Your task to perform on an android device: Clear the shopping cart on walmart. Search for macbook pro 13 inch on walmart, select the first entry, and add it to the cart. Image 0: 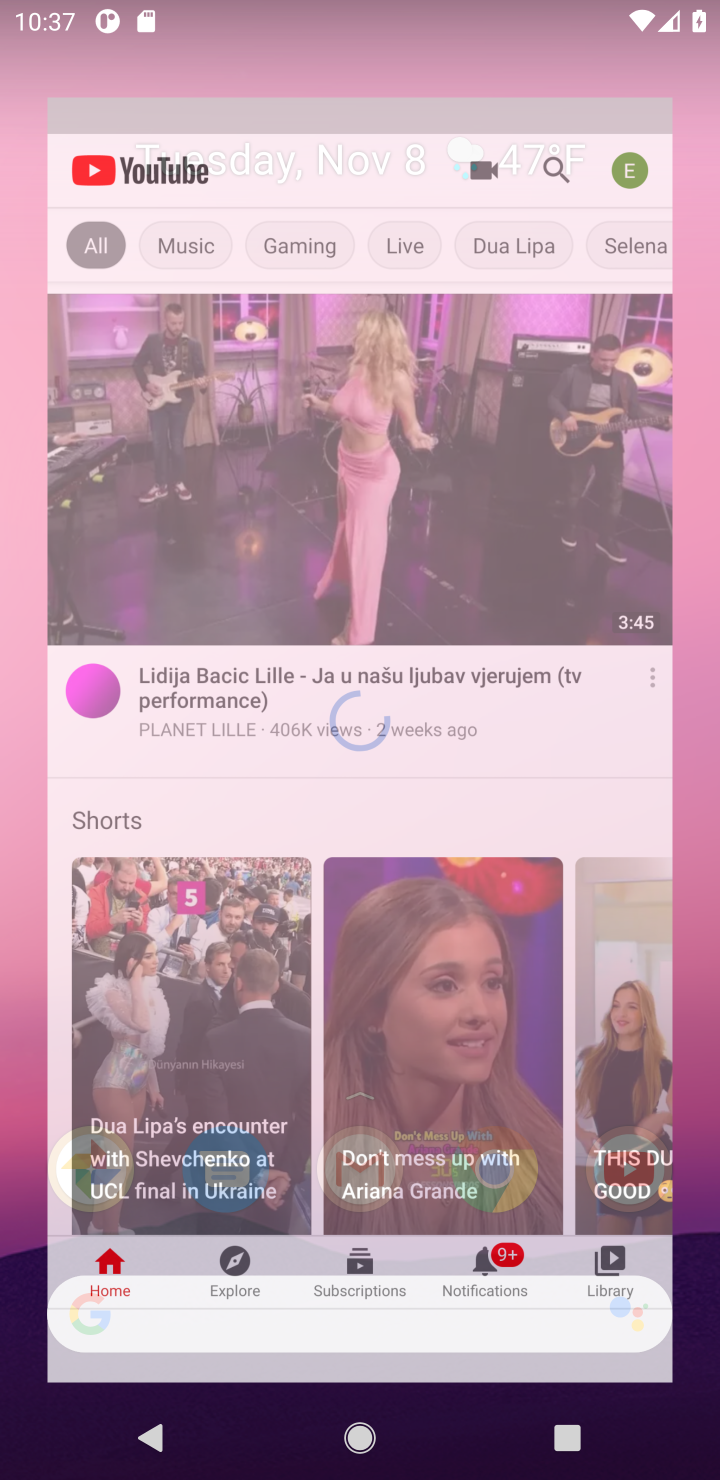
Step 0: click (500, 1135)
Your task to perform on an android device: Clear the shopping cart on walmart. Search for macbook pro 13 inch on walmart, select the first entry, and add it to the cart. Image 1: 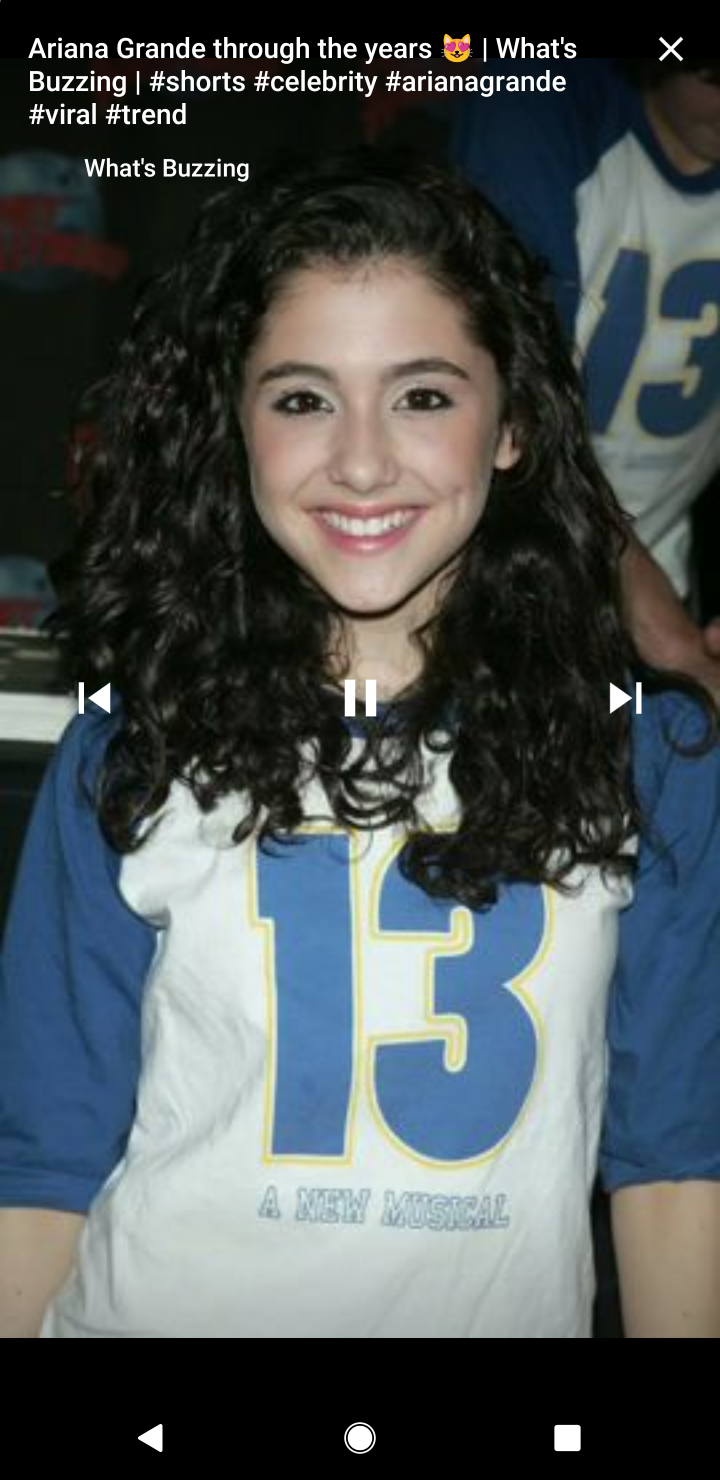
Step 1: press home button
Your task to perform on an android device: Clear the shopping cart on walmart. Search for macbook pro 13 inch on walmart, select the first entry, and add it to the cart. Image 2: 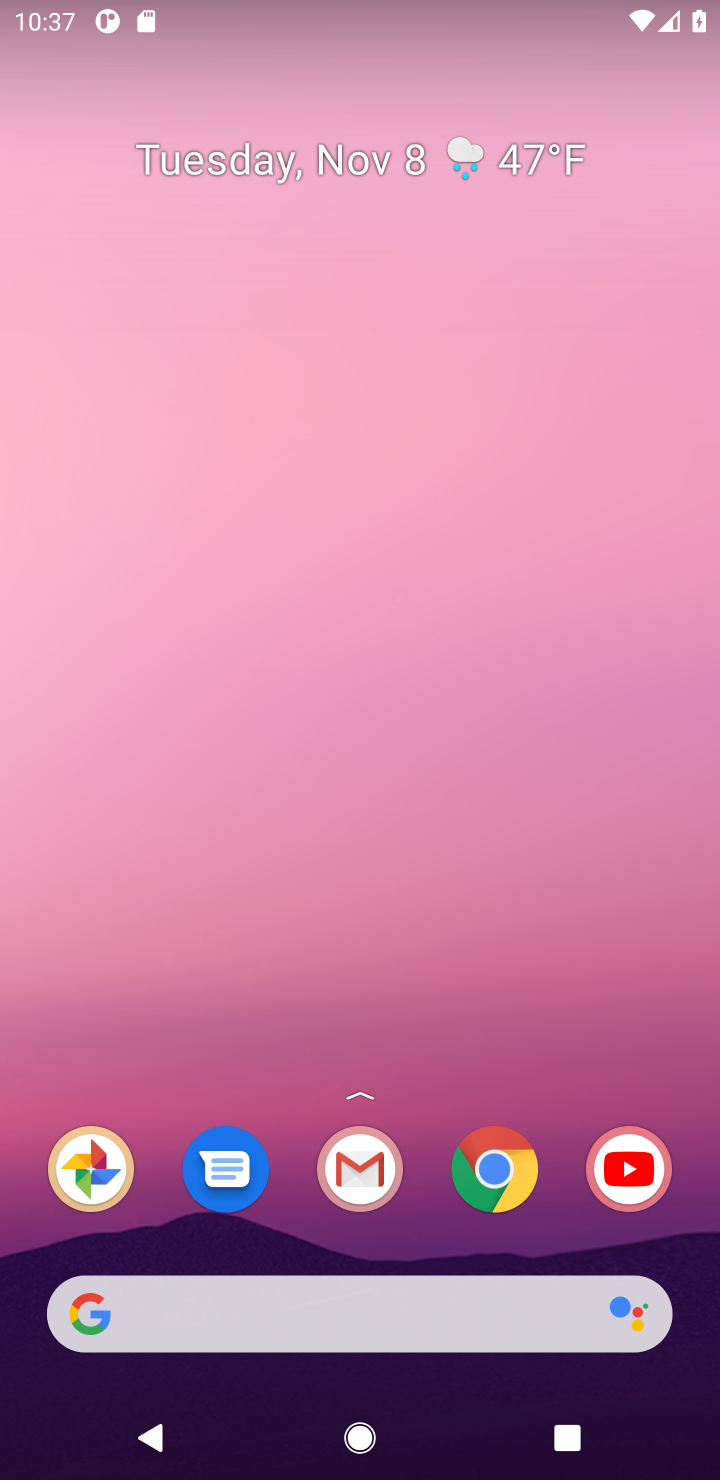
Step 2: click (515, 1180)
Your task to perform on an android device: Clear the shopping cart on walmart. Search for macbook pro 13 inch on walmart, select the first entry, and add it to the cart. Image 3: 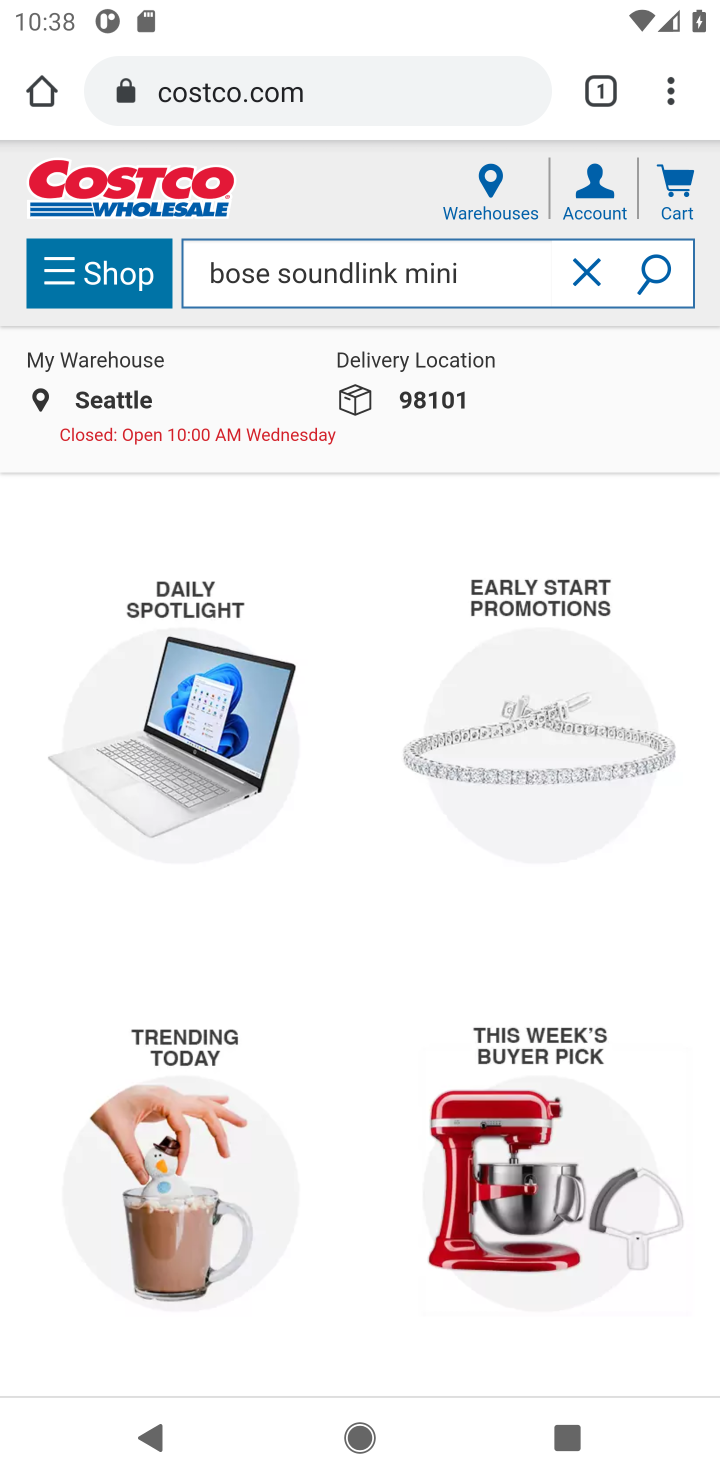
Step 3: click (456, 76)
Your task to perform on an android device: Clear the shopping cart on walmart. Search for macbook pro 13 inch on walmart, select the first entry, and add it to the cart. Image 4: 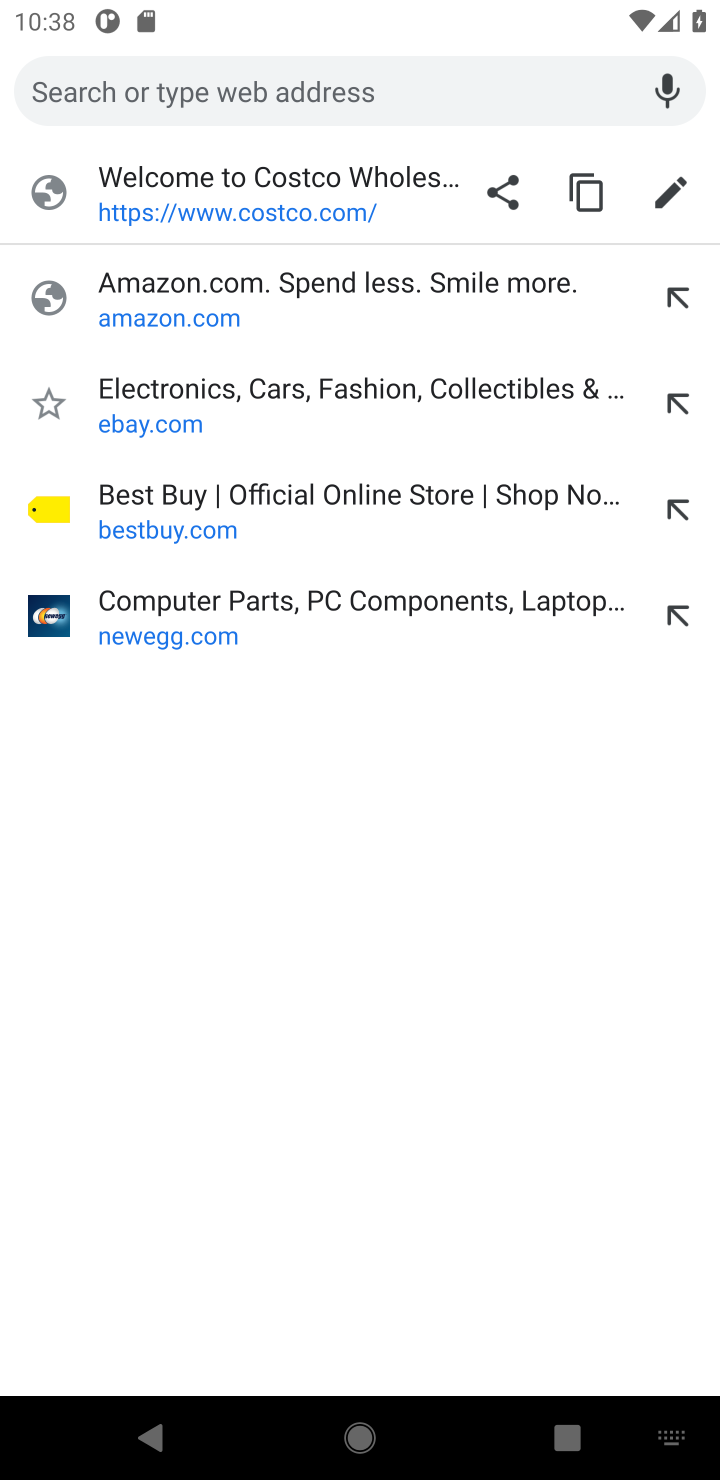
Step 4: press enter
Your task to perform on an android device: Clear the shopping cart on walmart. Search for macbook pro 13 inch on walmart, select the first entry, and add it to the cart. Image 5: 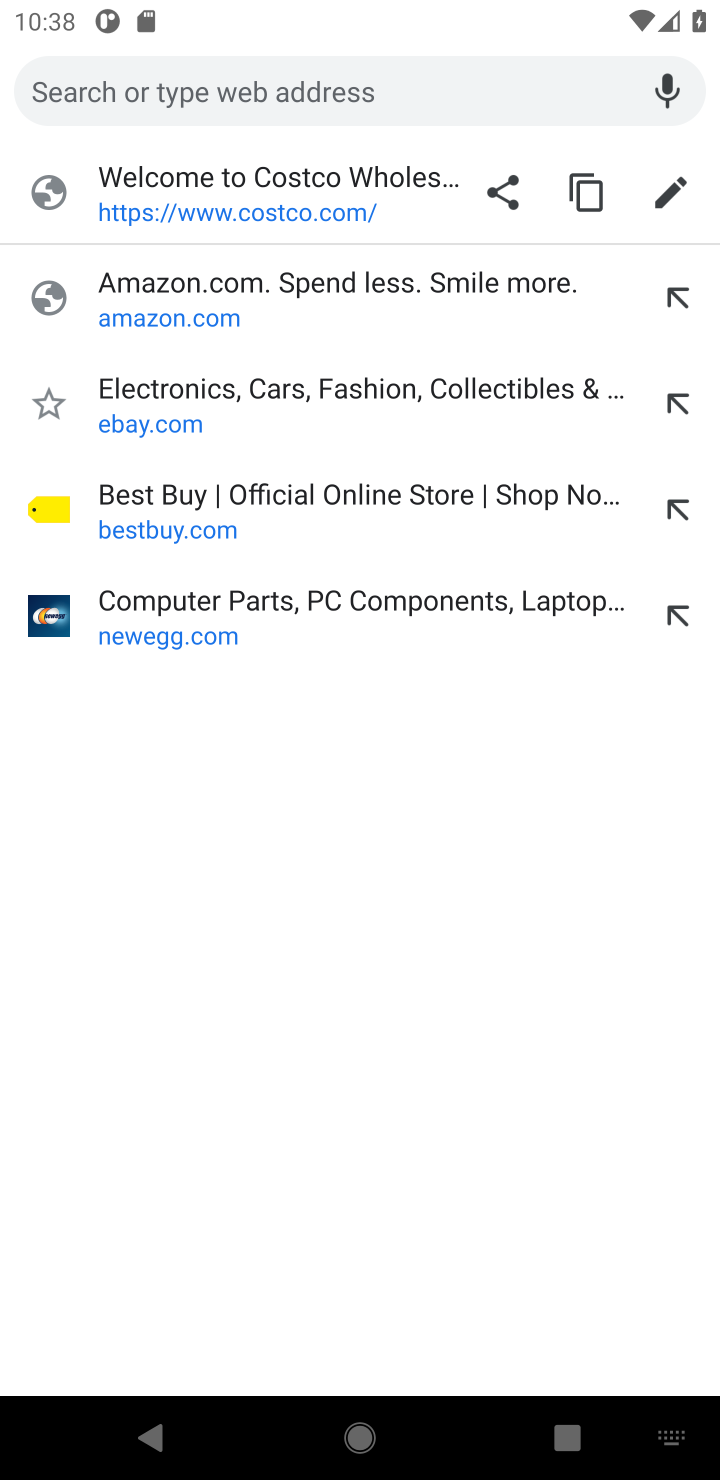
Step 5: type "walmart"
Your task to perform on an android device: Clear the shopping cart on walmart. Search for macbook pro 13 inch on walmart, select the first entry, and add it to the cart. Image 6: 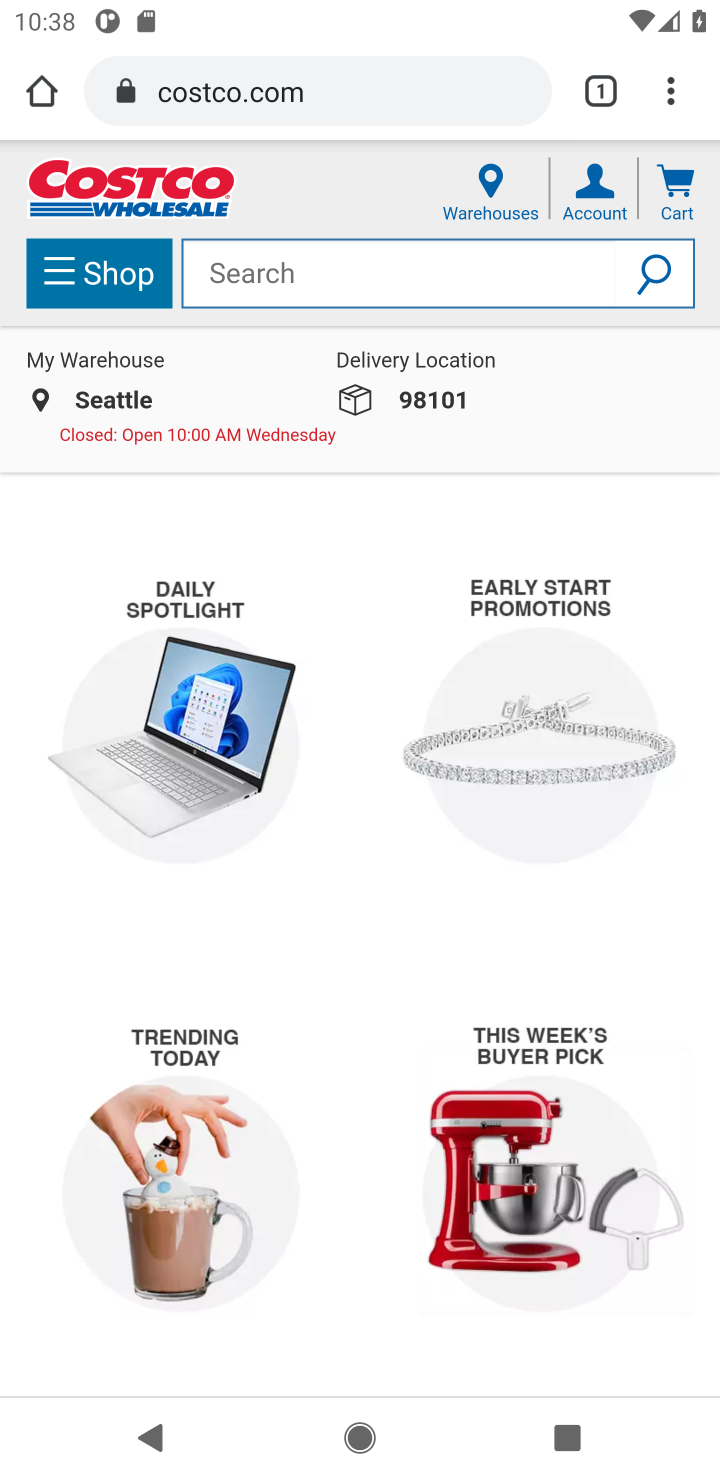
Step 6: click (303, 92)
Your task to perform on an android device: Clear the shopping cart on walmart. Search for macbook pro 13 inch on walmart, select the first entry, and add it to the cart. Image 7: 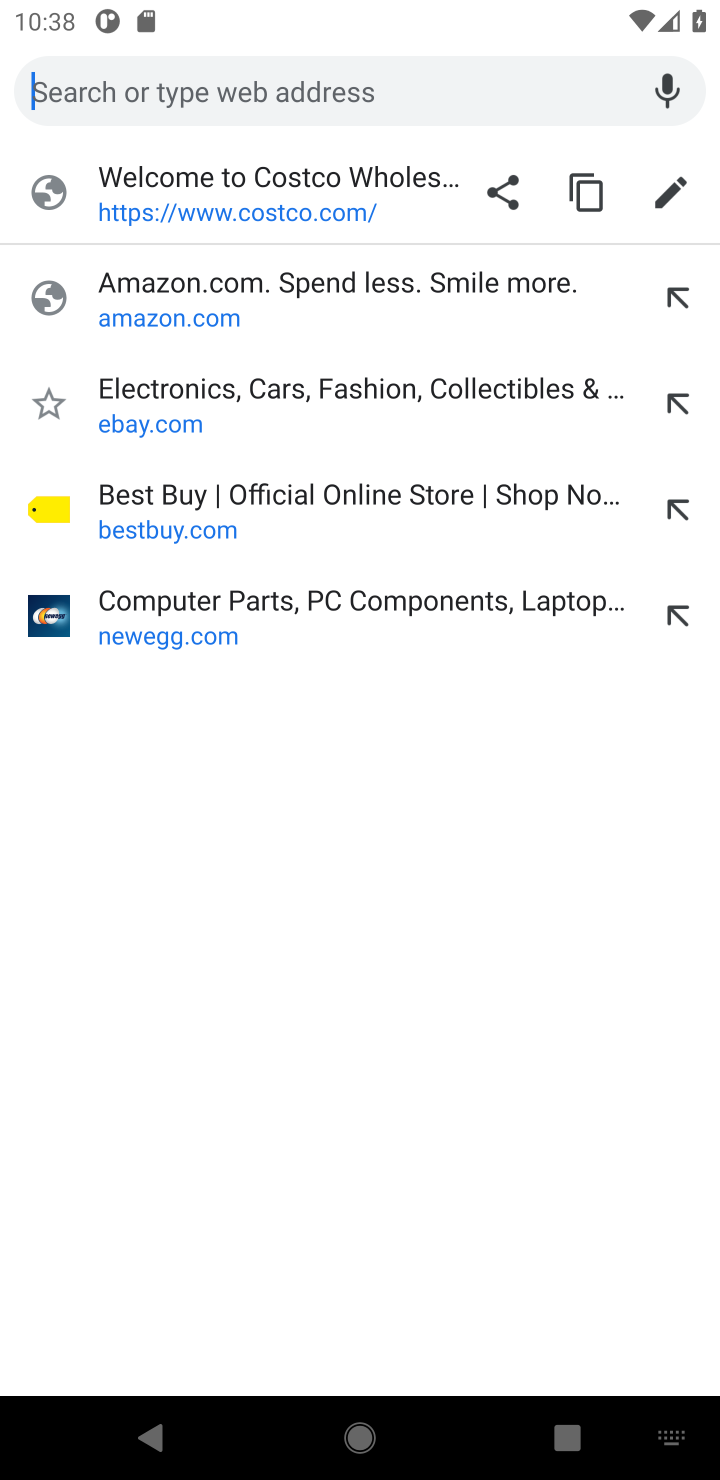
Step 7: press enter
Your task to perform on an android device: Clear the shopping cart on walmart. Search for macbook pro 13 inch on walmart, select the first entry, and add it to the cart. Image 8: 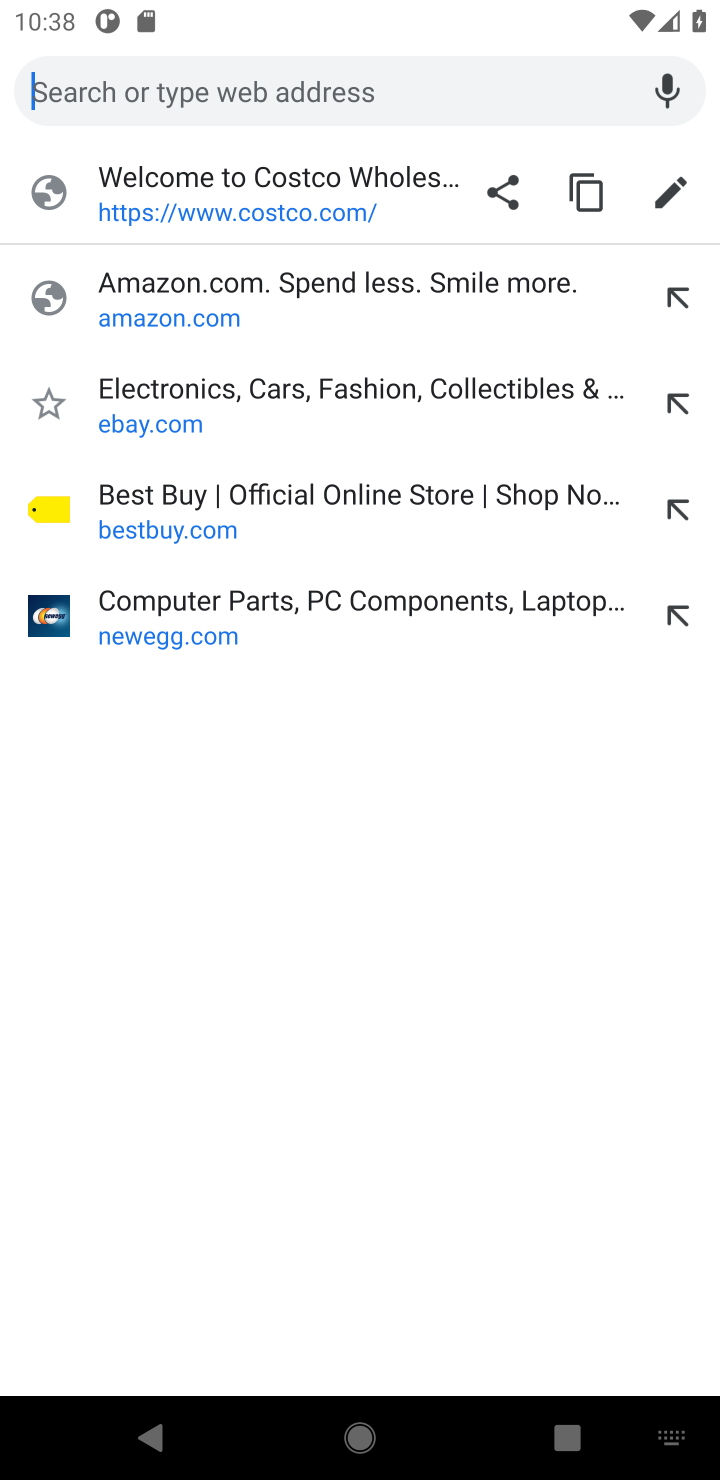
Step 8: type "walmart"
Your task to perform on an android device: Clear the shopping cart on walmart. Search for macbook pro 13 inch on walmart, select the first entry, and add it to the cart. Image 9: 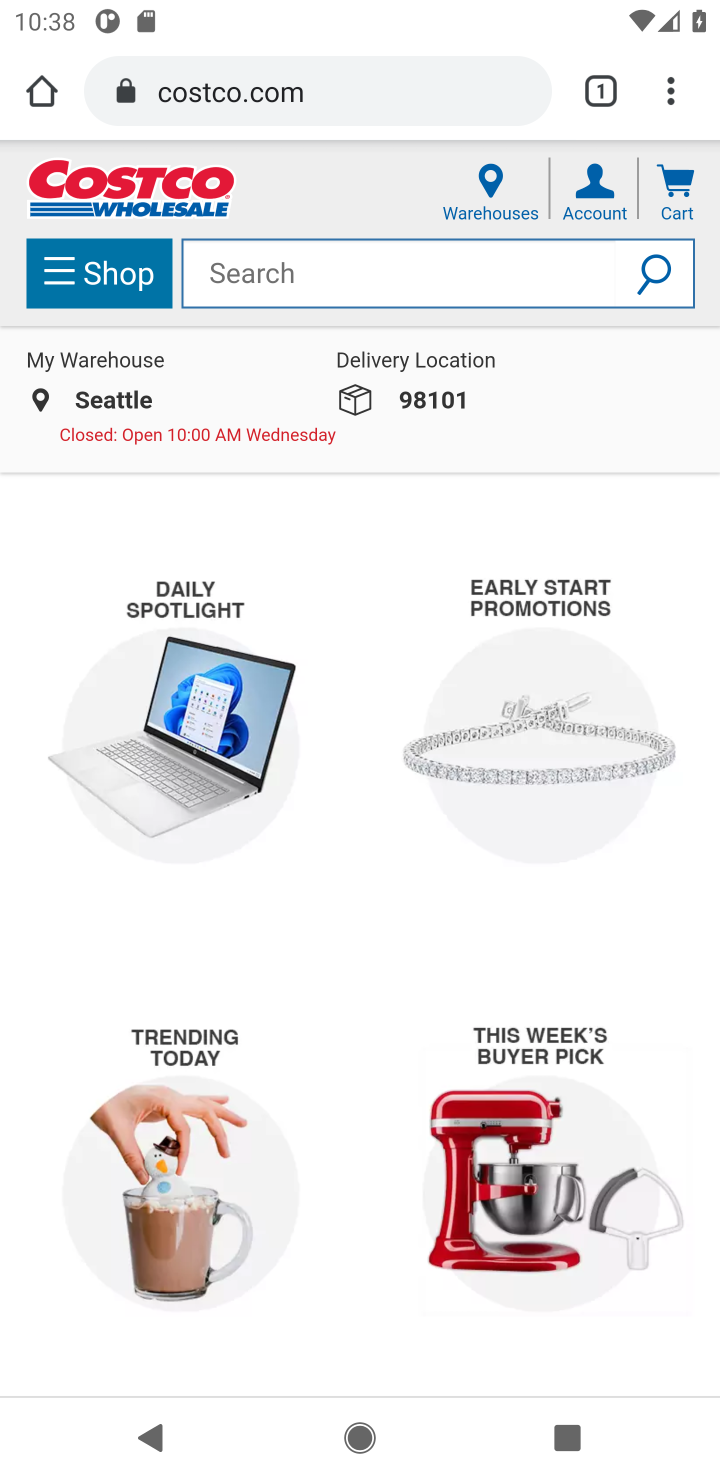
Step 9: click (39, 92)
Your task to perform on an android device: Clear the shopping cart on walmart. Search for macbook pro 13 inch on walmart, select the first entry, and add it to the cart. Image 10: 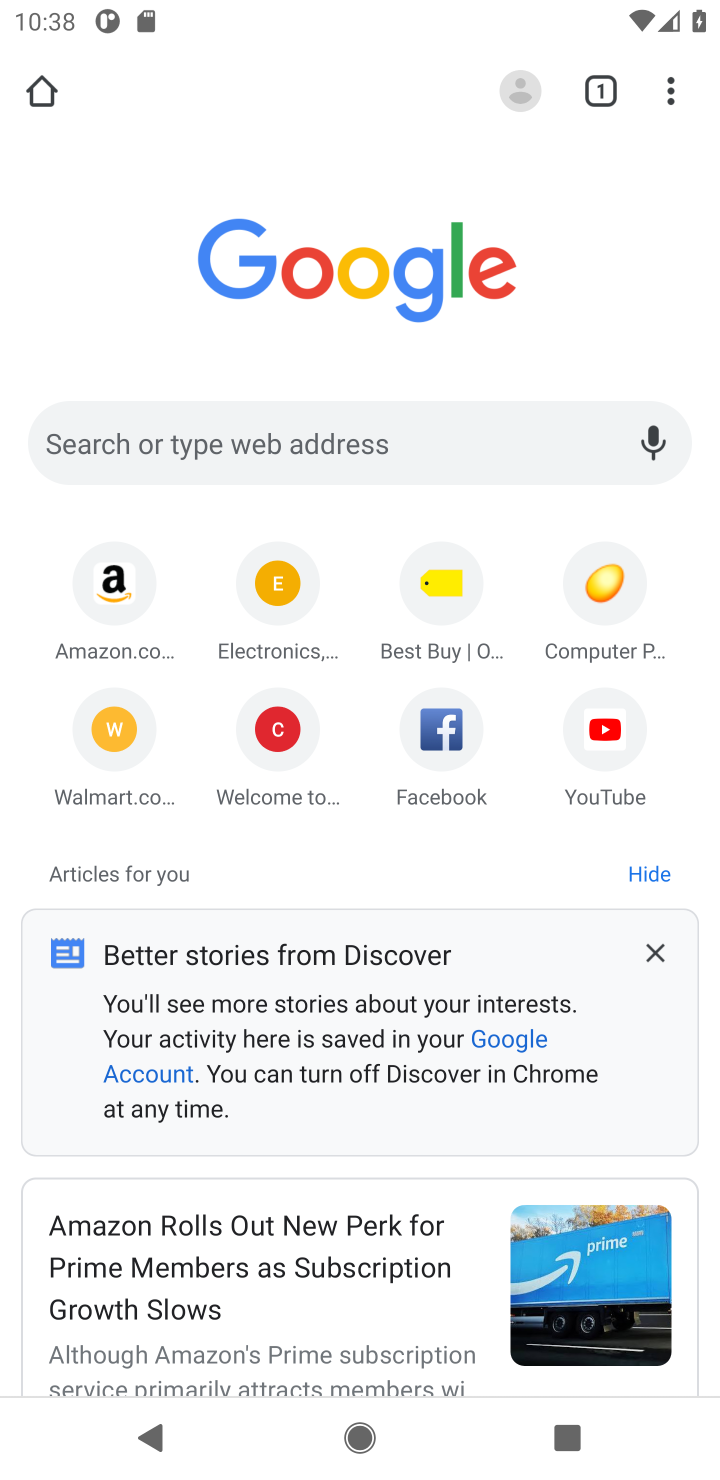
Step 10: click (334, 426)
Your task to perform on an android device: Clear the shopping cart on walmart. Search for macbook pro 13 inch on walmart, select the first entry, and add it to the cart. Image 11: 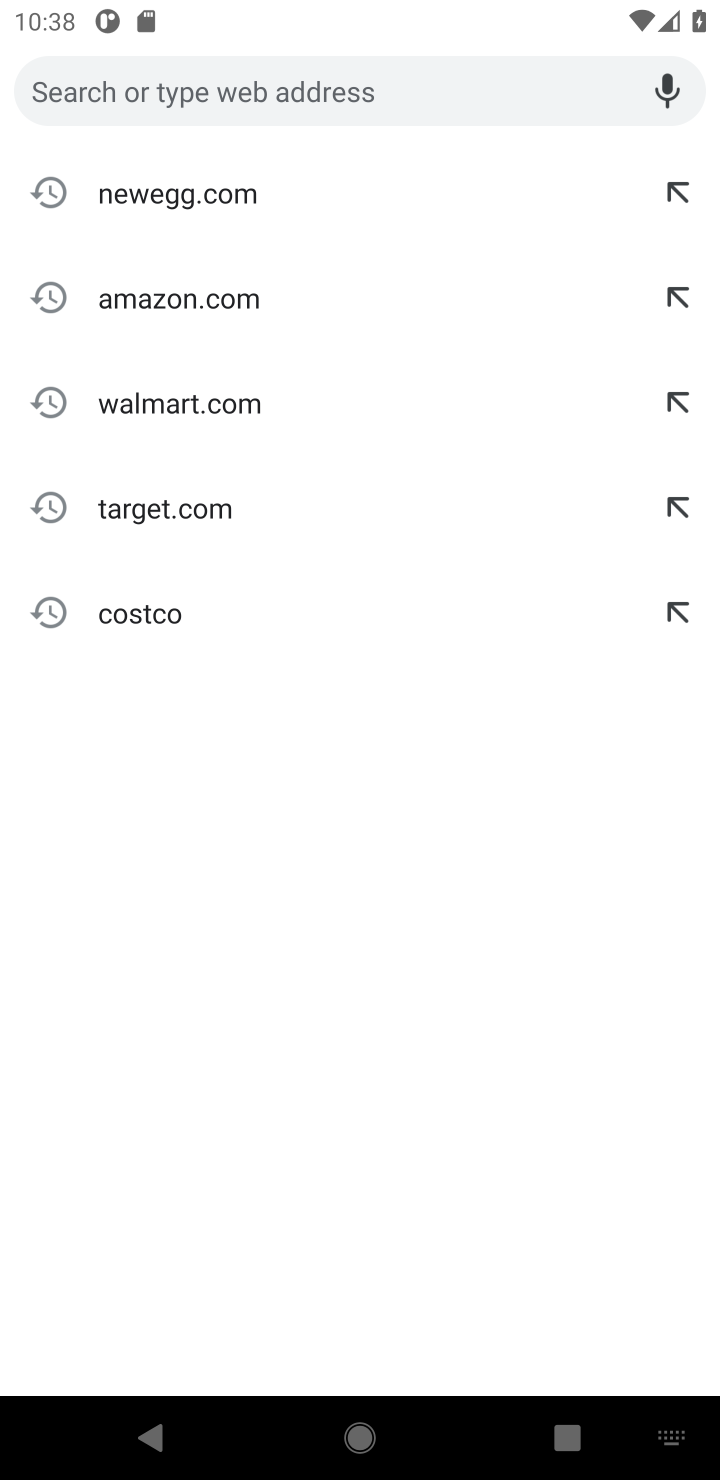
Step 11: click (237, 409)
Your task to perform on an android device: Clear the shopping cart on walmart. Search for macbook pro 13 inch on walmart, select the first entry, and add it to the cart. Image 12: 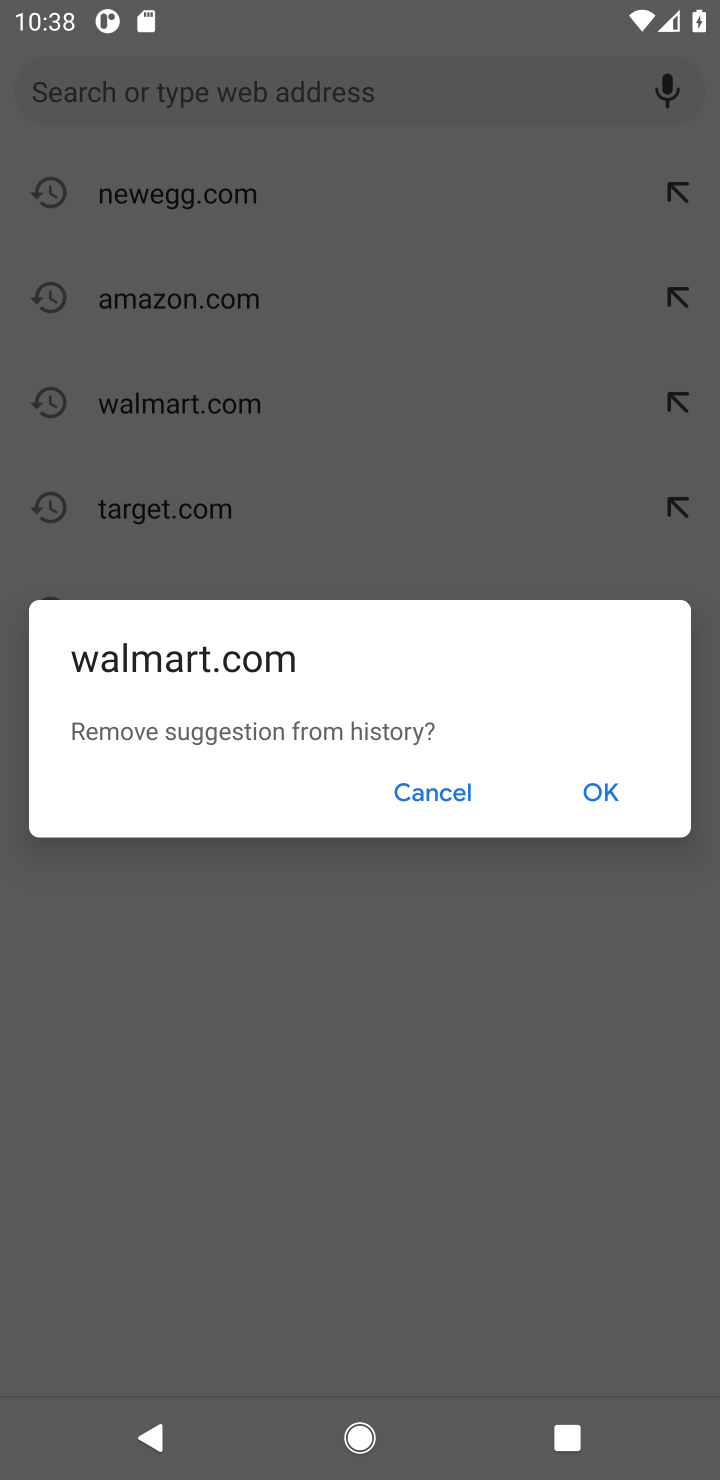
Step 12: click (578, 782)
Your task to perform on an android device: Clear the shopping cart on walmart. Search for macbook pro 13 inch on walmart, select the first entry, and add it to the cart. Image 13: 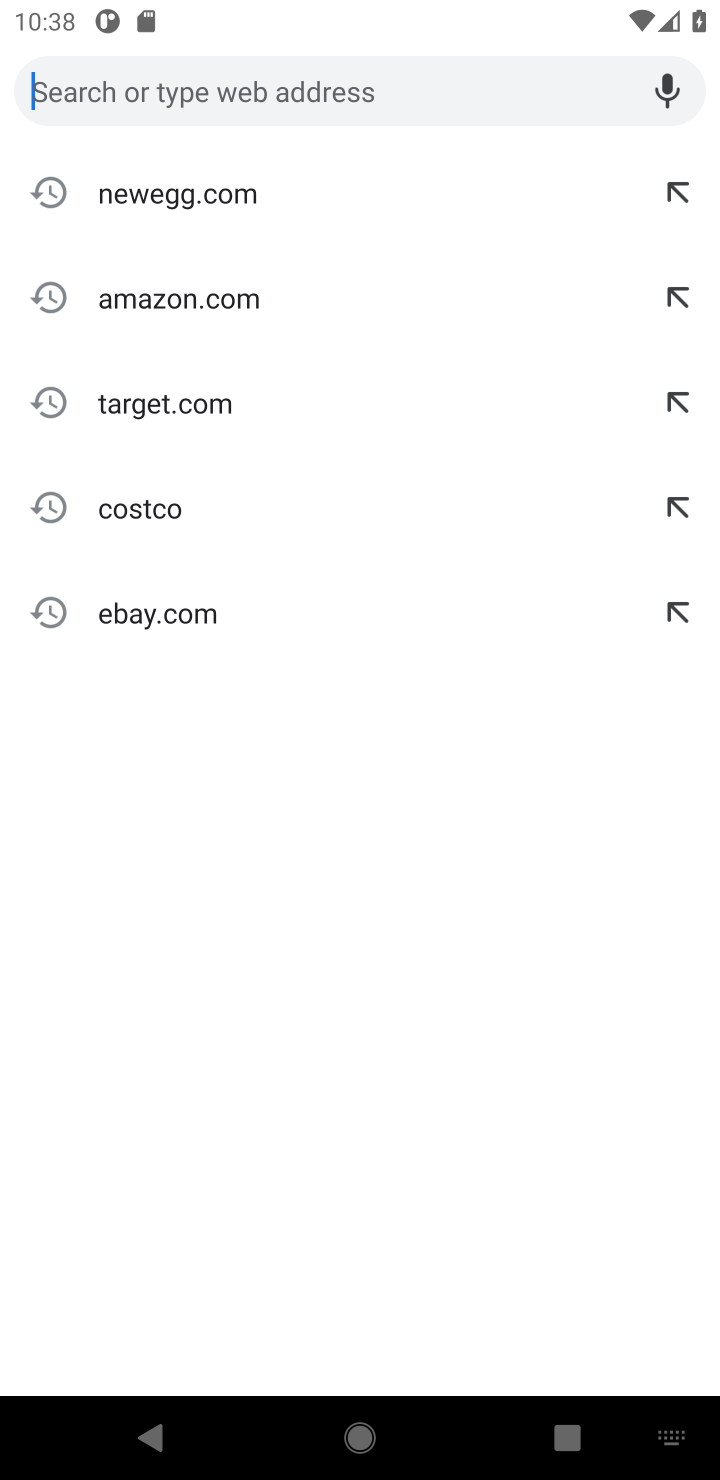
Step 13: press enter
Your task to perform on an android device: Clear the shopping cart on walmart. Search for macbook pro 13 inch on walmart, select the first entry, and add it to the cart. Image 14: 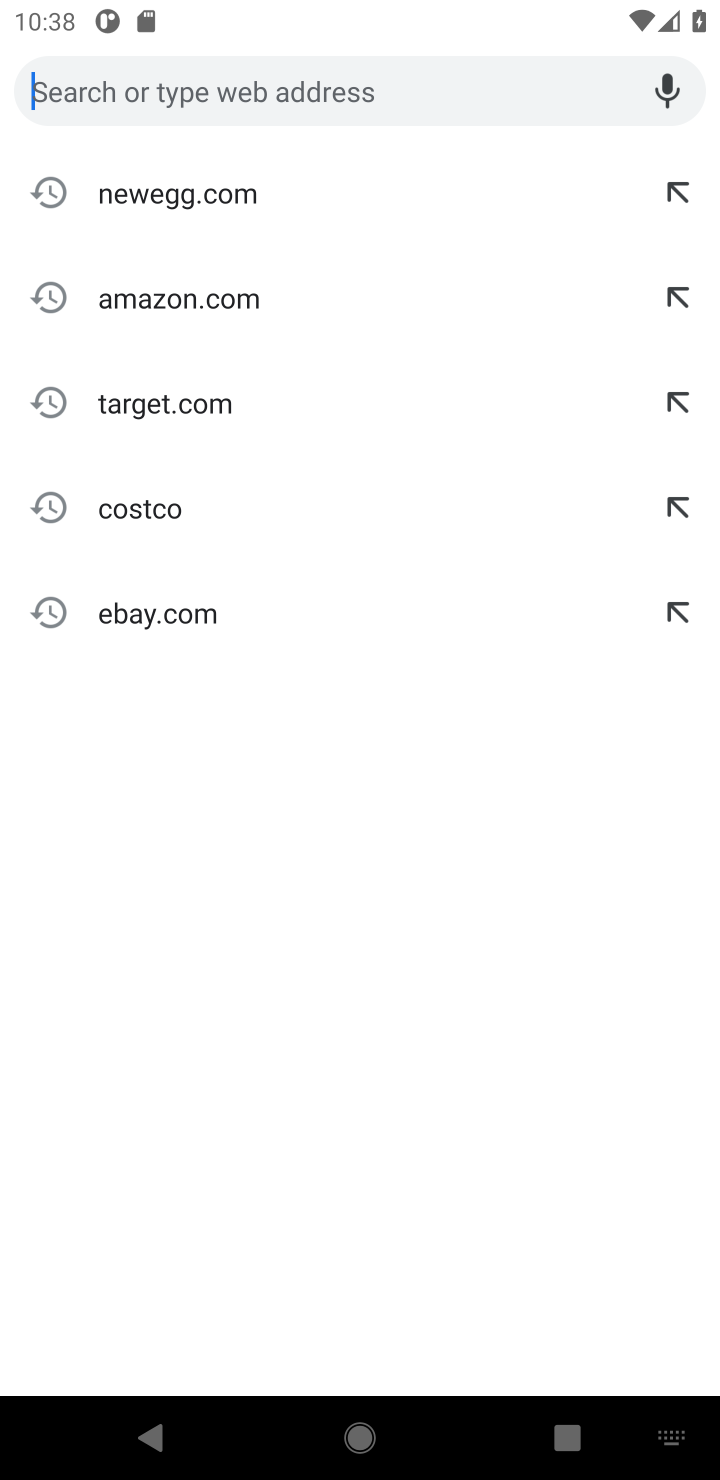
Step 14: type "walmart"
Your task to perform on an android device: Clear the shopping cart on walmart. Search for macbook pro 13 inch on walmart, select the first entry, and add it to the cart. Image 15: 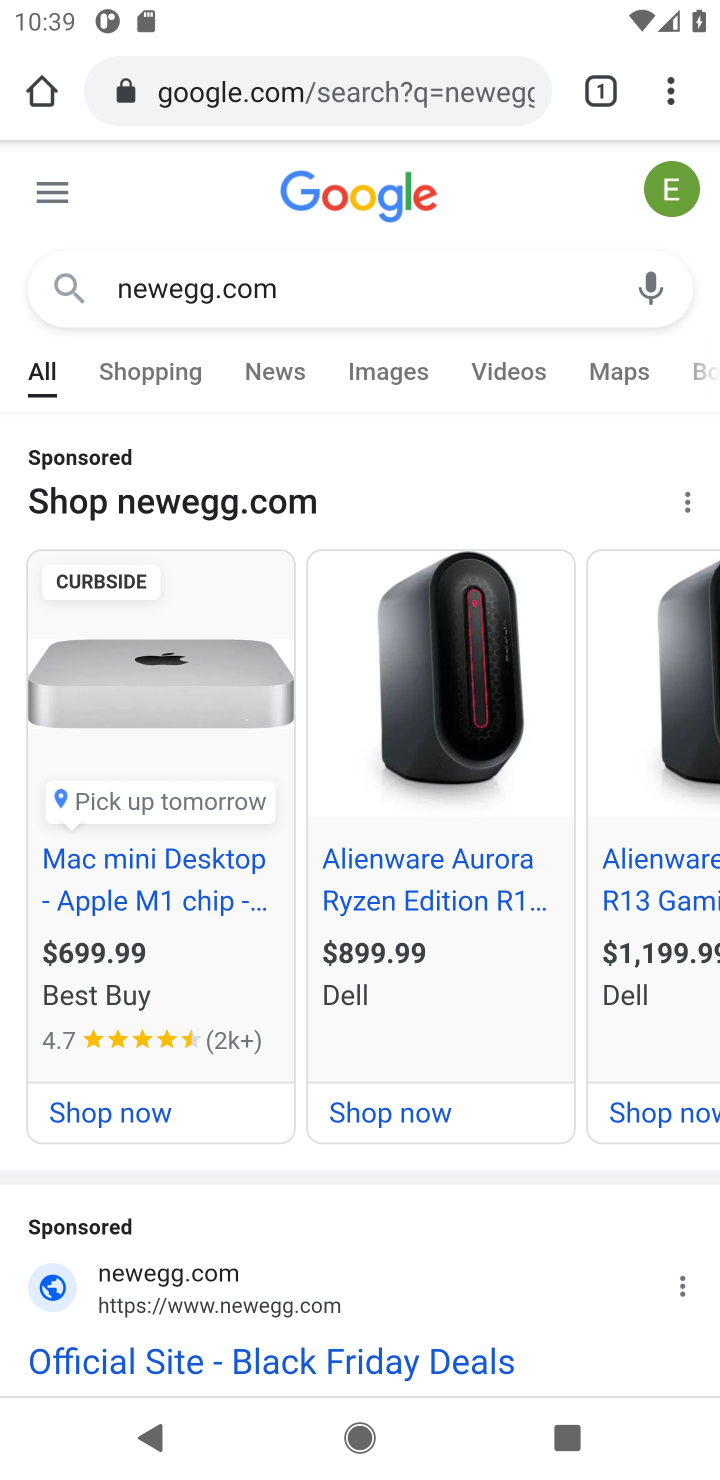
Step 15: click (382, 93)
Your task to perform on an android device: Clear the shopping cart on walmart. Search for macbook pro 13 inch on walmart, select the first entry, and add it to the cart. Image 16: 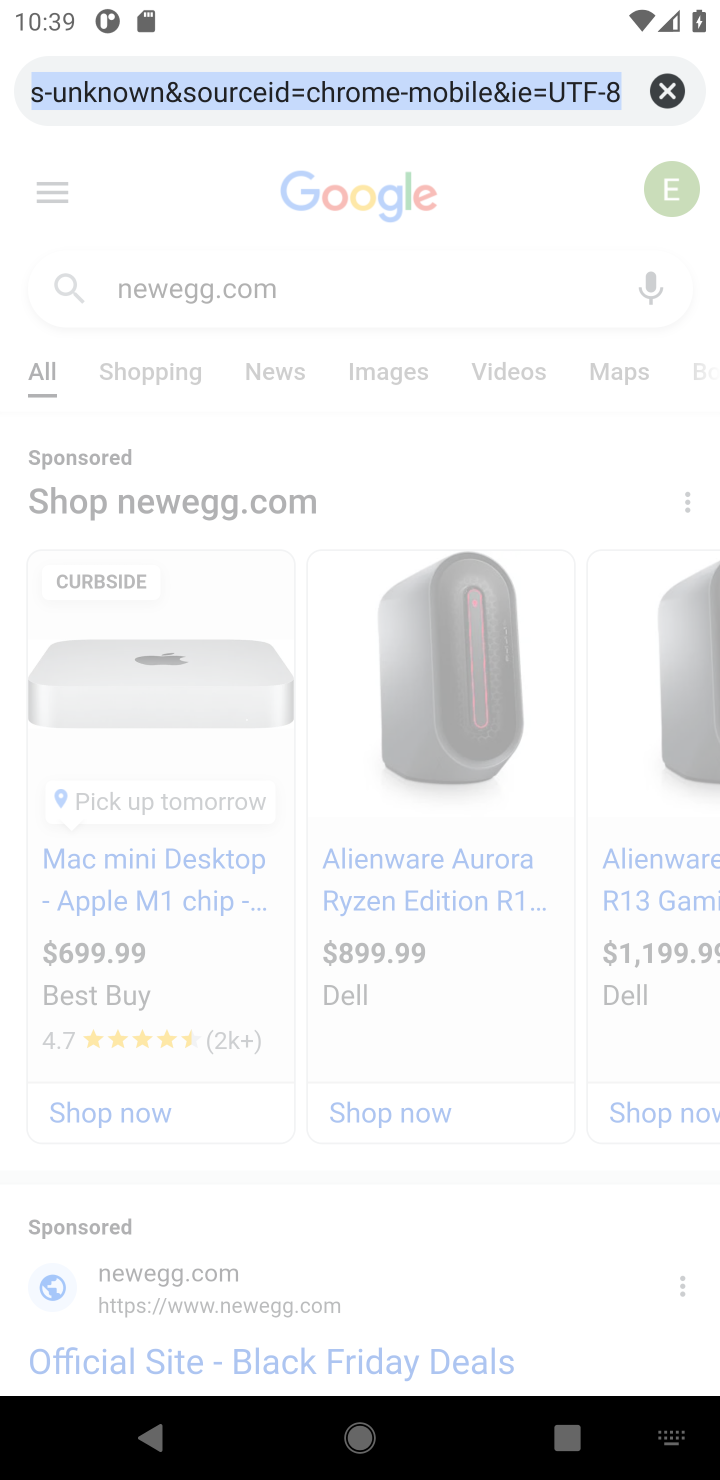
Step 16: click (671, 93)
Your task to perform on an android device: Clear the shopping cart on walmart. Search for macbook pro 13 inch on walmart, select the first entry, and add it to the cart. Image 17: 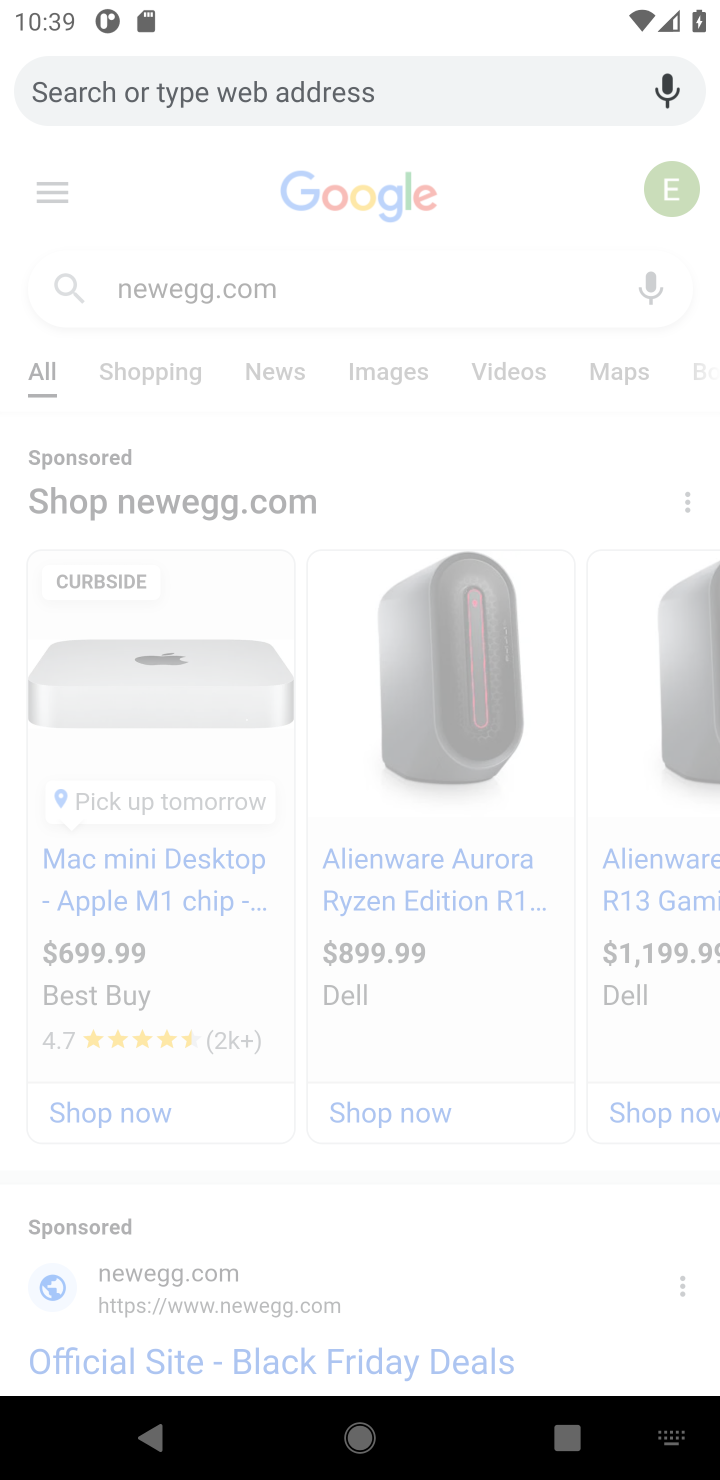
Step 17: press enter
Your task to perform on an android device: Clear the shopping cart on walmart. Search for macbook pro 13 inch on walmart, select the first entry, and add it to the cart. Image 18: 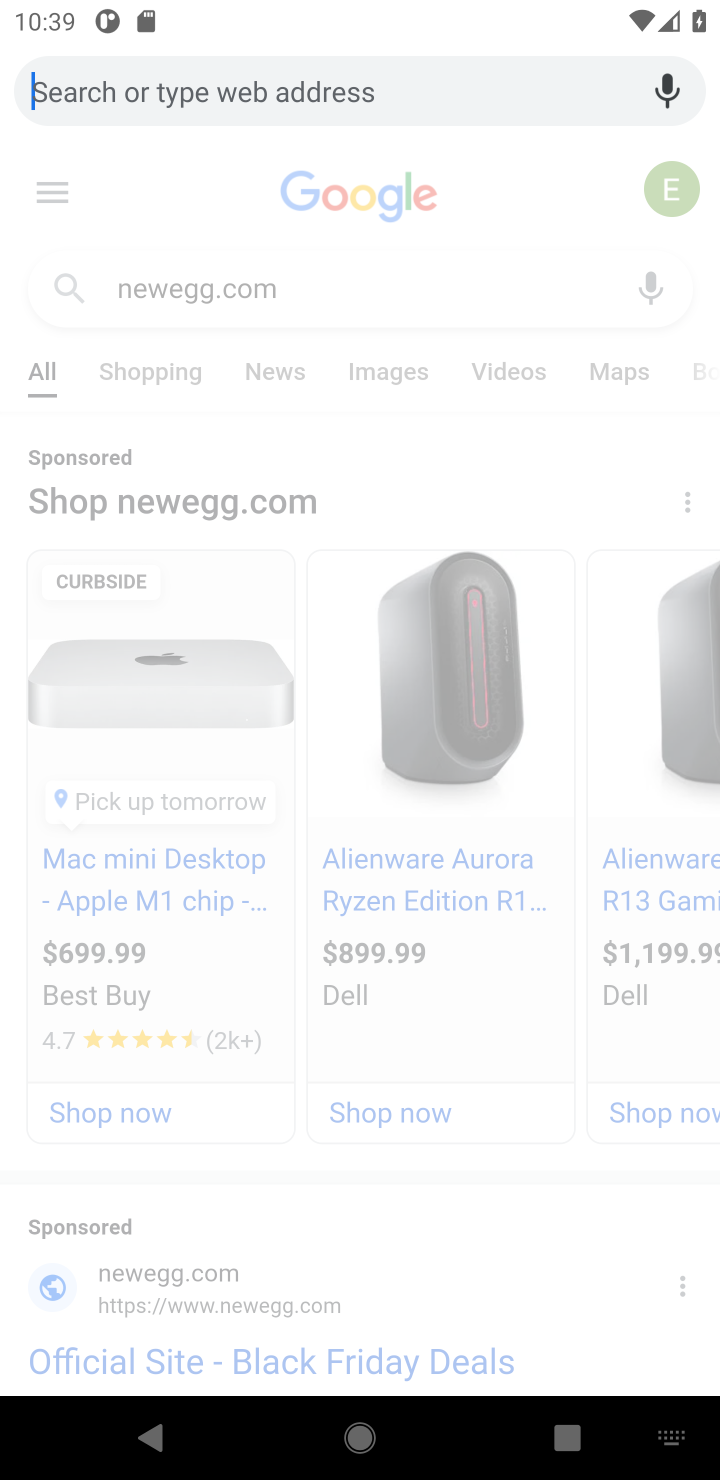
Step 18: type "walmart"
Your task to perform on an android device: Clear the shopping cart on walmart. Search for macbook pro 13 inch on walmart, select the first entry, and add it to the cart. Image 19: 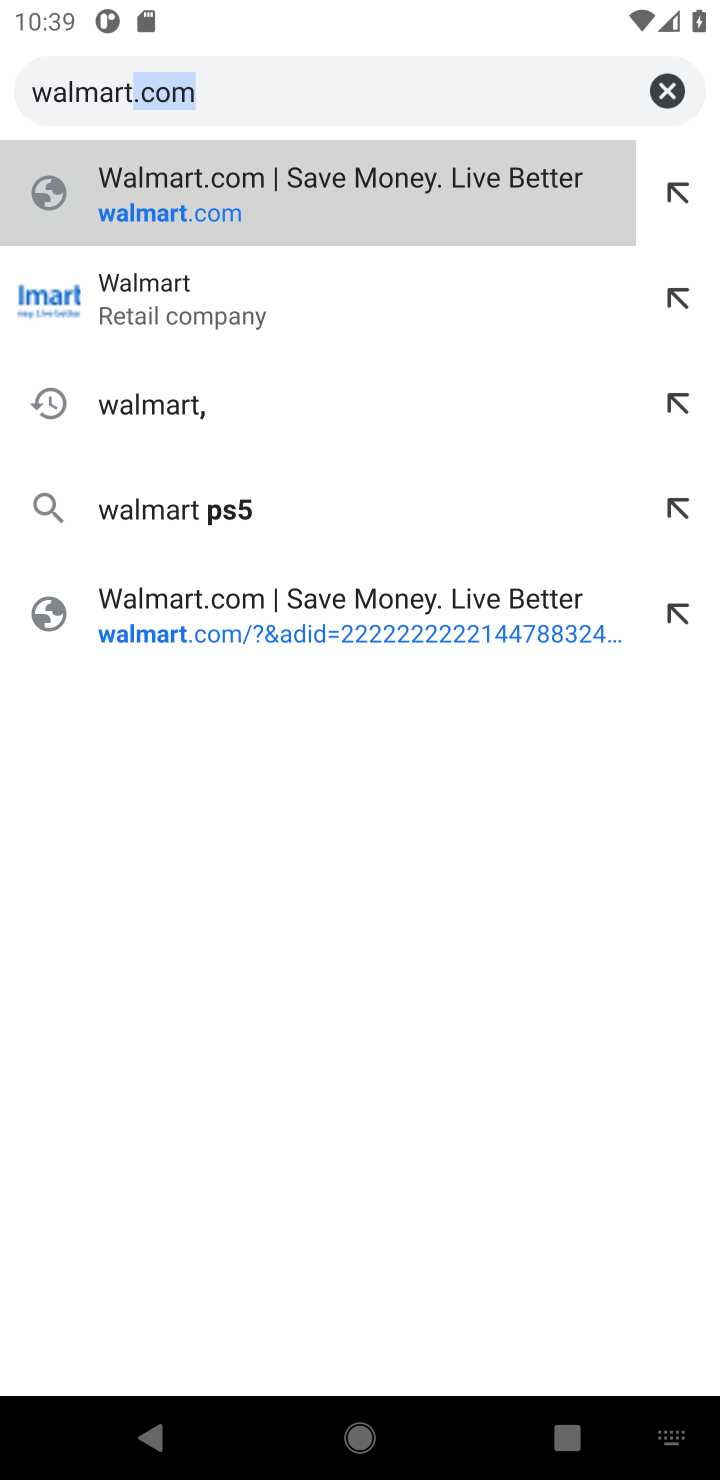
Step 19: click (381, 83)
Your task to perform on an android device: Clear the shopping cart on walmart. Search for macbook pro 13 inch on walmart, select the first entry, and add it to the cart. Image 20: 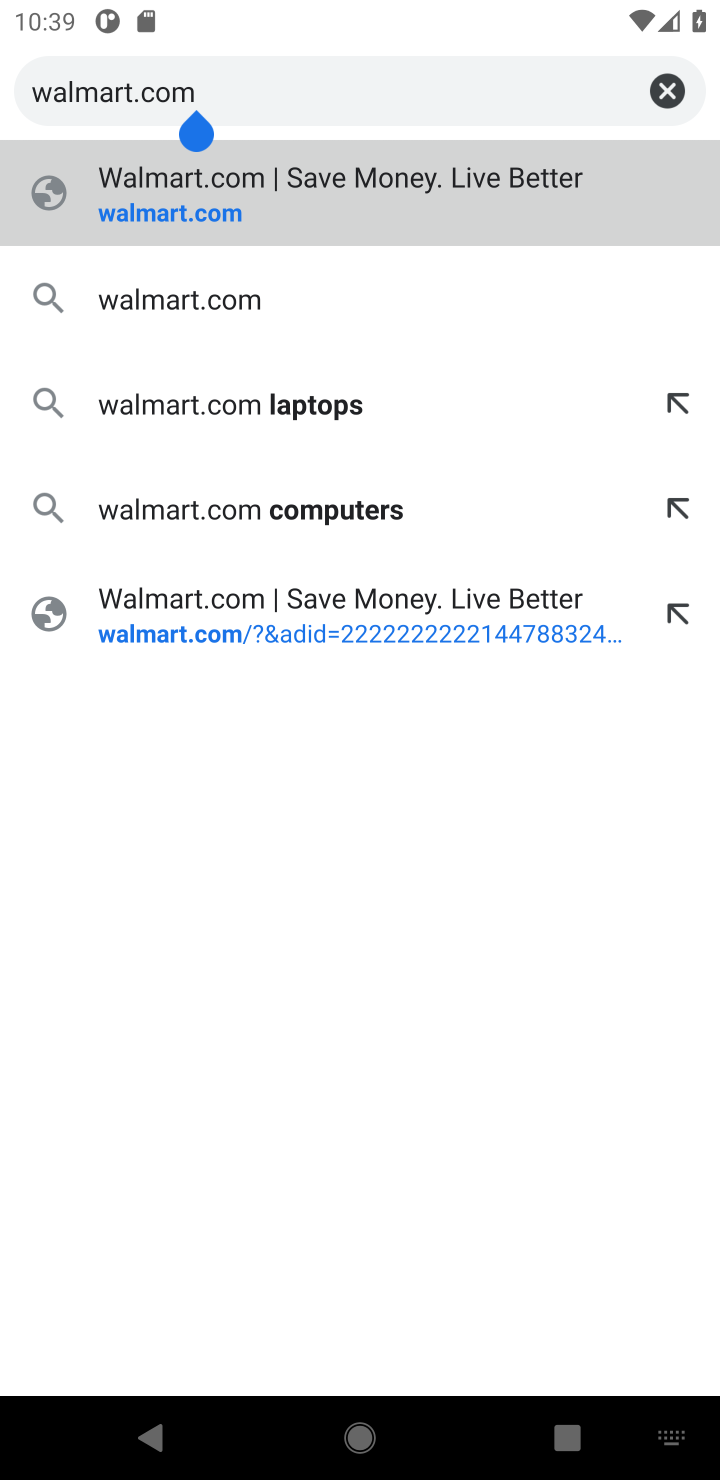
Step 20: click (224, 307)
Your task to perform on an android device: Clear the shopping cart on walmart. Search for macbook pro 13 inch on walmart, select the first entry, and add it to the cart. Image 21: 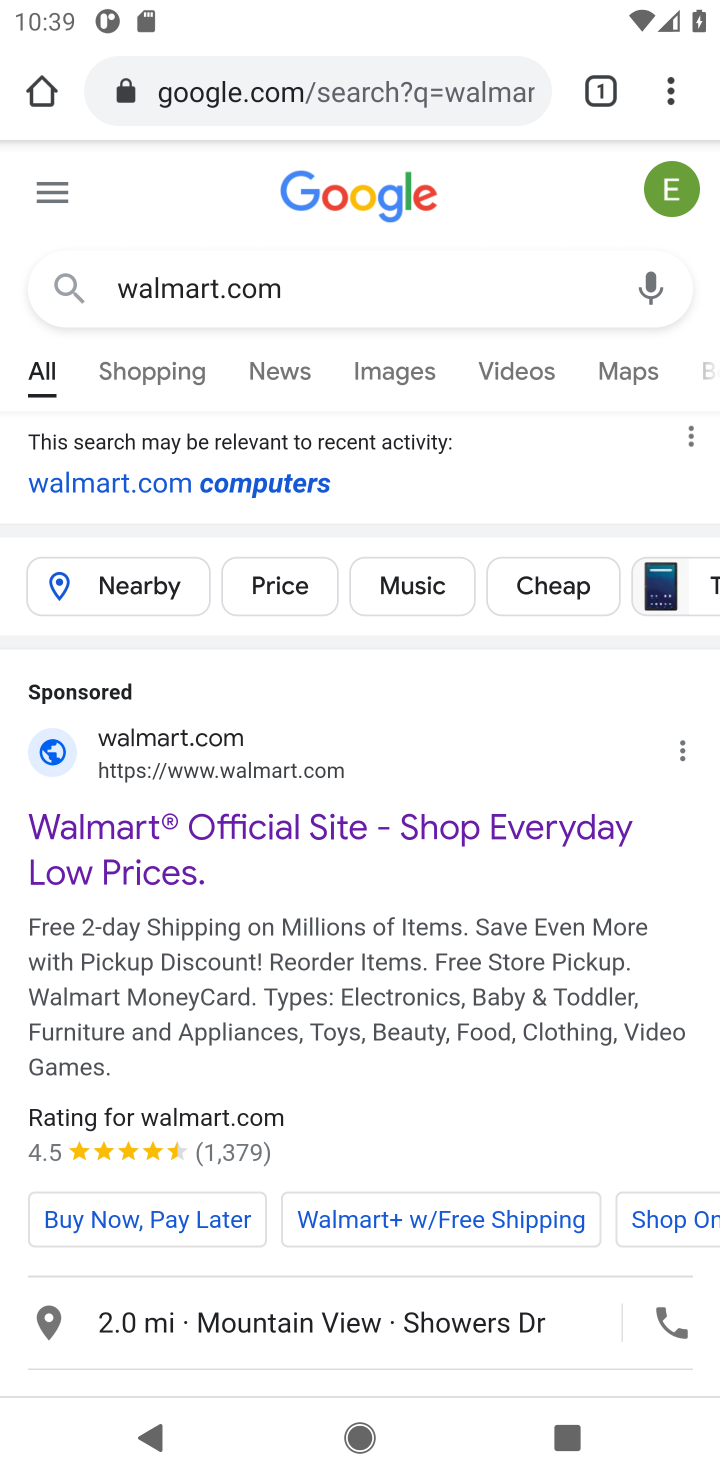
Step 21: click (196, 758)
Your task to perform on an android device: Clear the shopping cart on walmart. Search for macbook pro 13 inch on walmart, select the first entry, and add it to the cart. Image 22: 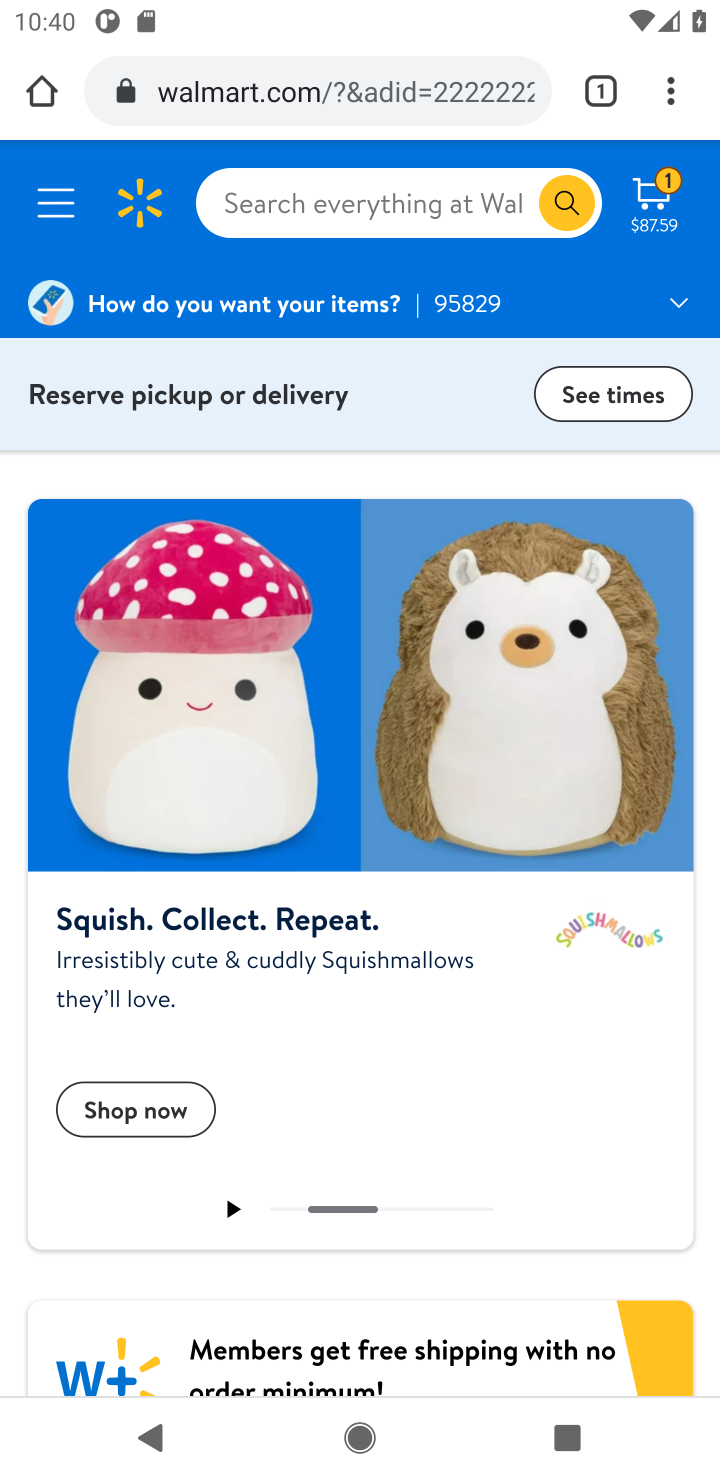
Step 22: click (642, 204)
Your task to perform on an android device: Clear the shopping cart on walmart. Search for macbook pro 13 inch on walmart, select the first entry, and add it to the cart. Image 23: 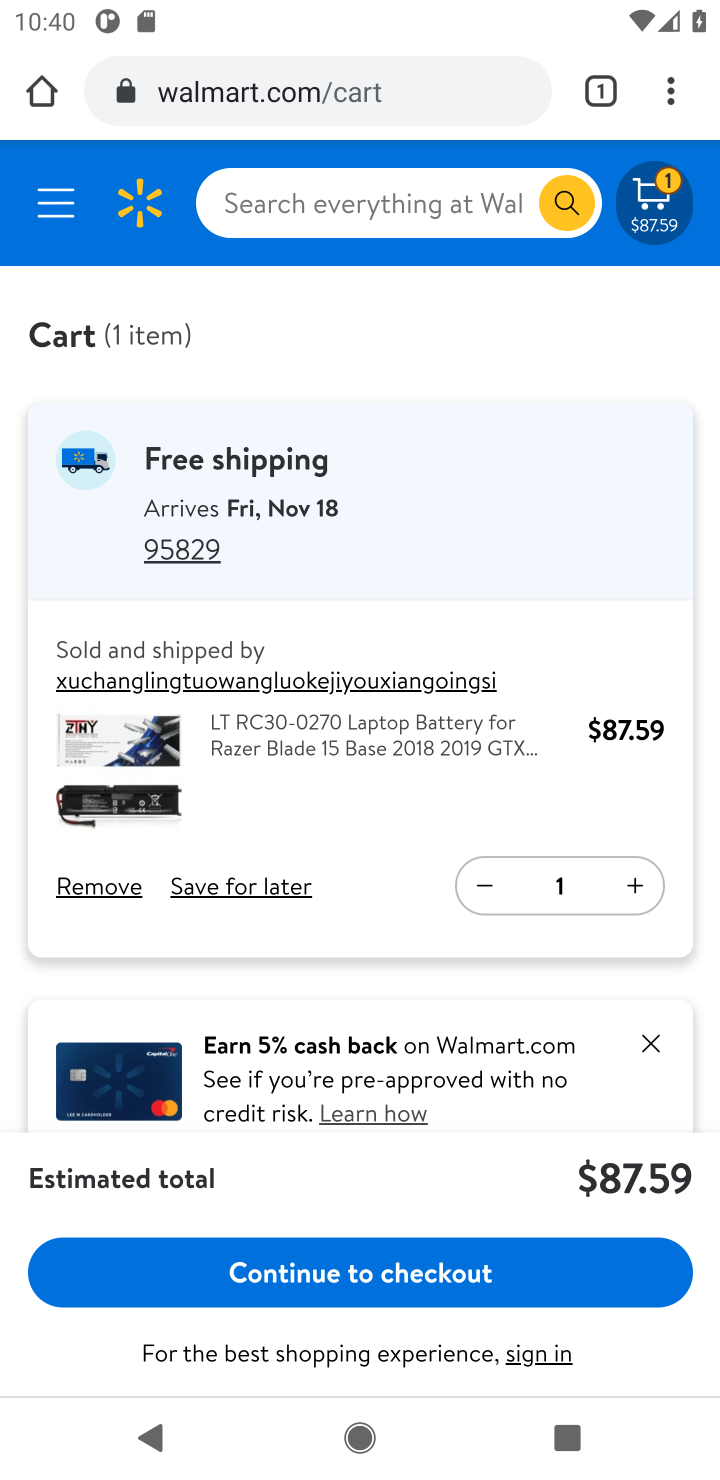
Step 23: click (109, 884)
Your task to perform on an android device: Clear the shopping cart on walmart. Search for macbook pro 13 inch on walmart, select the first entry, and add it to the cart. Image 24: 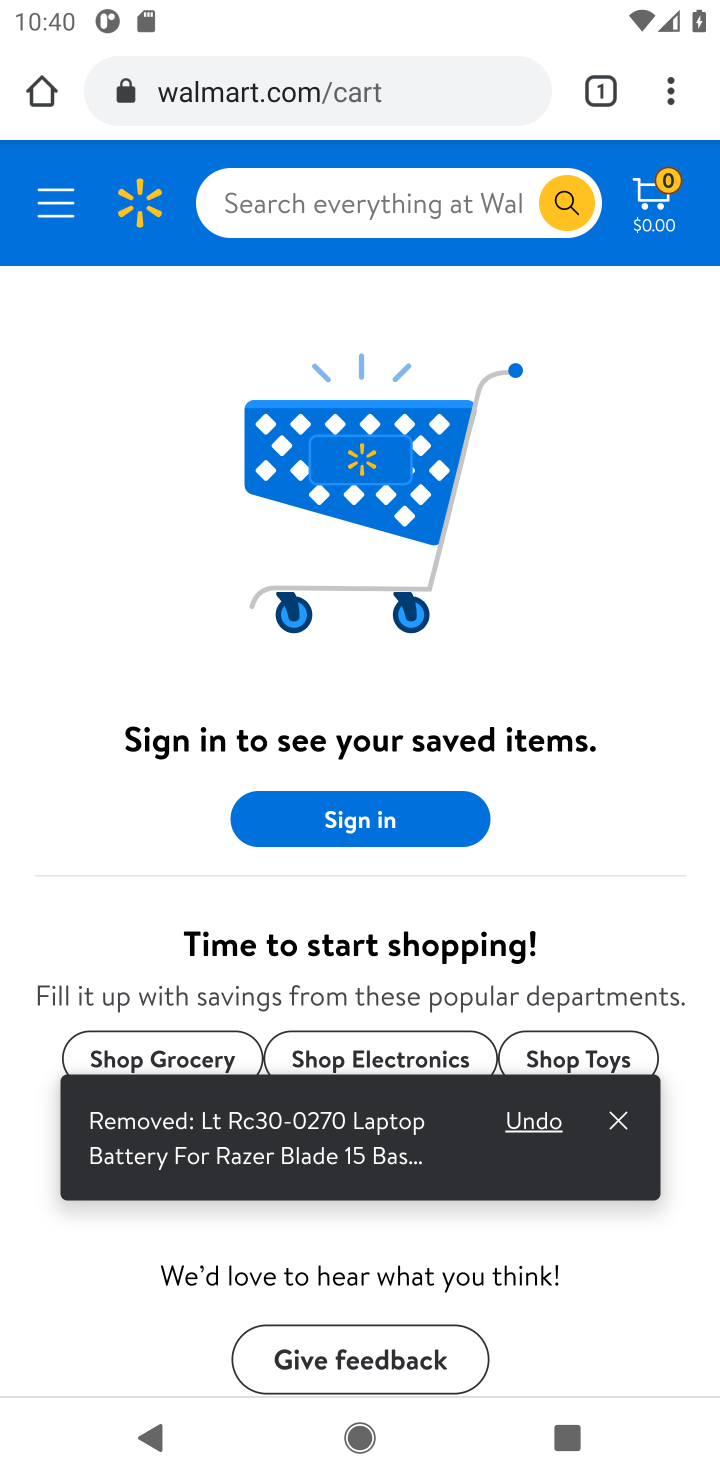
Step 24: click (471, 197)
Your task to perform on an android device: Clear the shopping cart on walmart. Search for macbook pro 13 inch on walmart, select the first entry, and add it to the cart. Image 25: 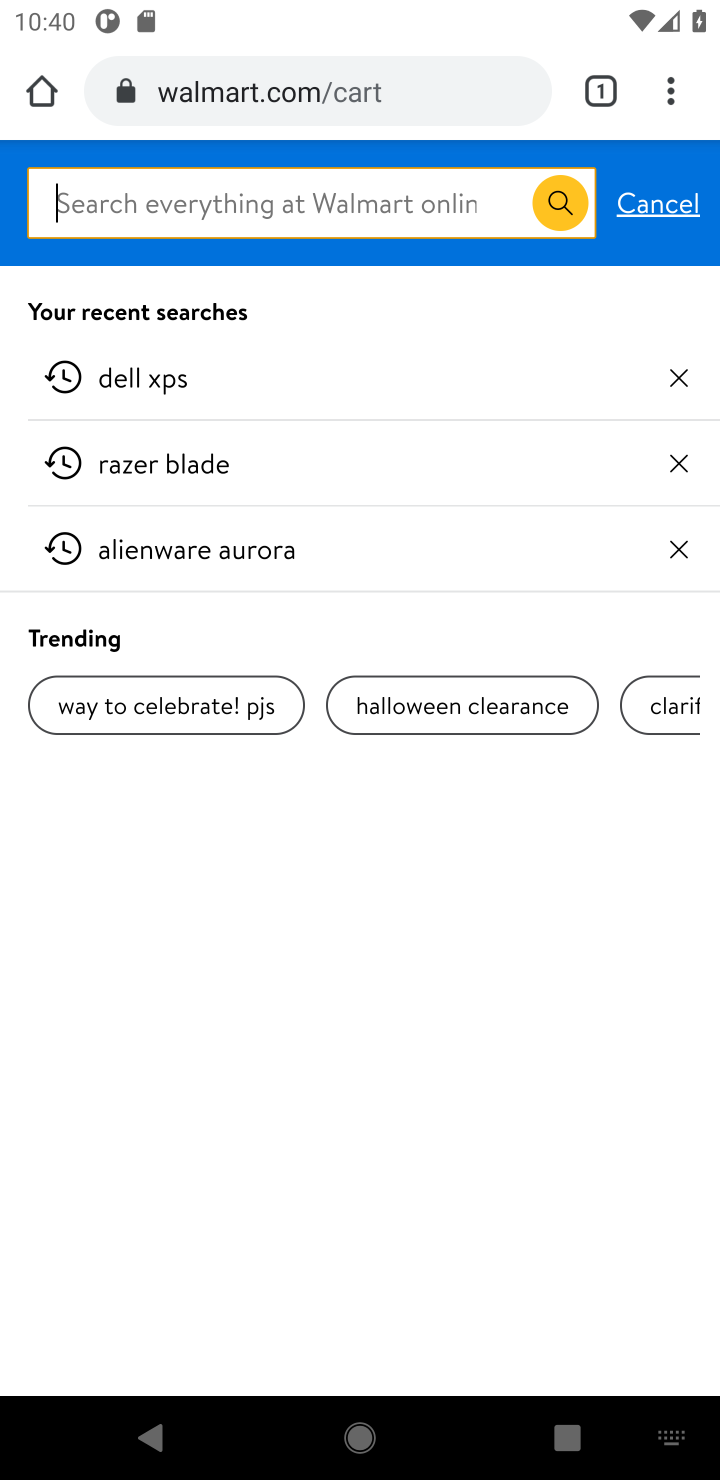
Step 25: click (299, 201)
Your task to perform on an android device: Clear the shopping cart on walmart. Search for macbook pro 13 inch on walmart, select the first entry, and add it to the cart. Image 26: 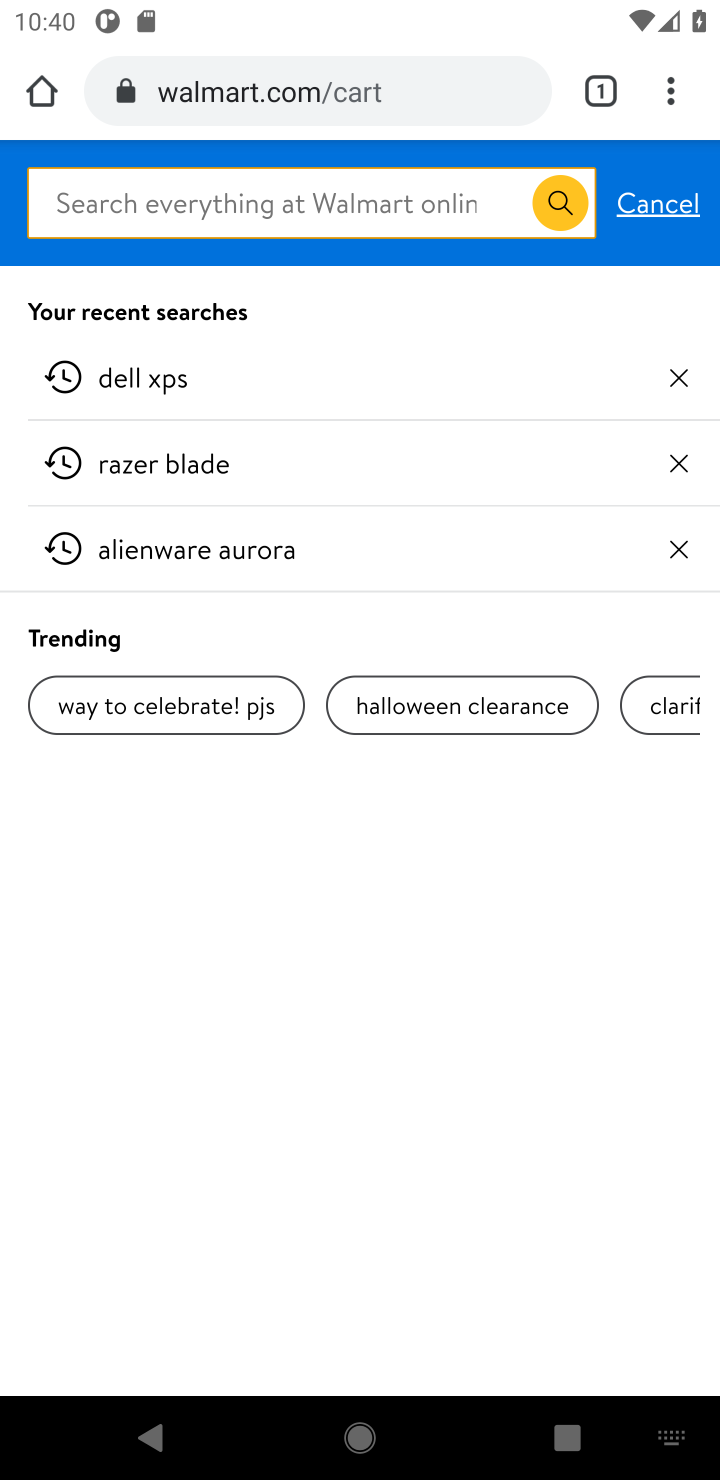
Step 26: press enter
Your task to perform on an android device: Clear the shopping cart on walmart. Search for macbook pro 13 inch on walmart, select the first entry, and add it to the cart. Image 27: 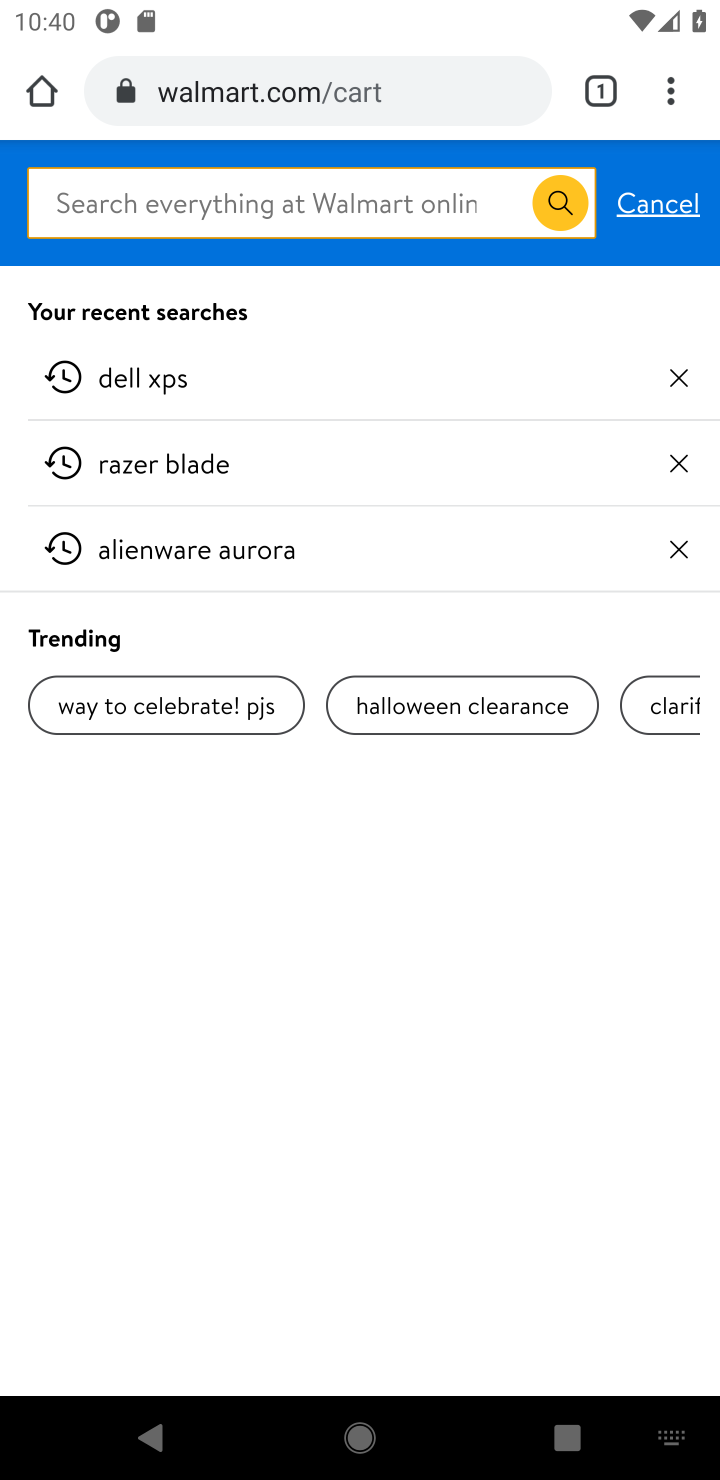
Step 27: type " macbook pro 13 inch"
Your task to perform on an android device: Clear the shopping cart on walmart. Search for macbook pro 13 inch on walmart, select the first entry, and add it to the cart. Image 28: 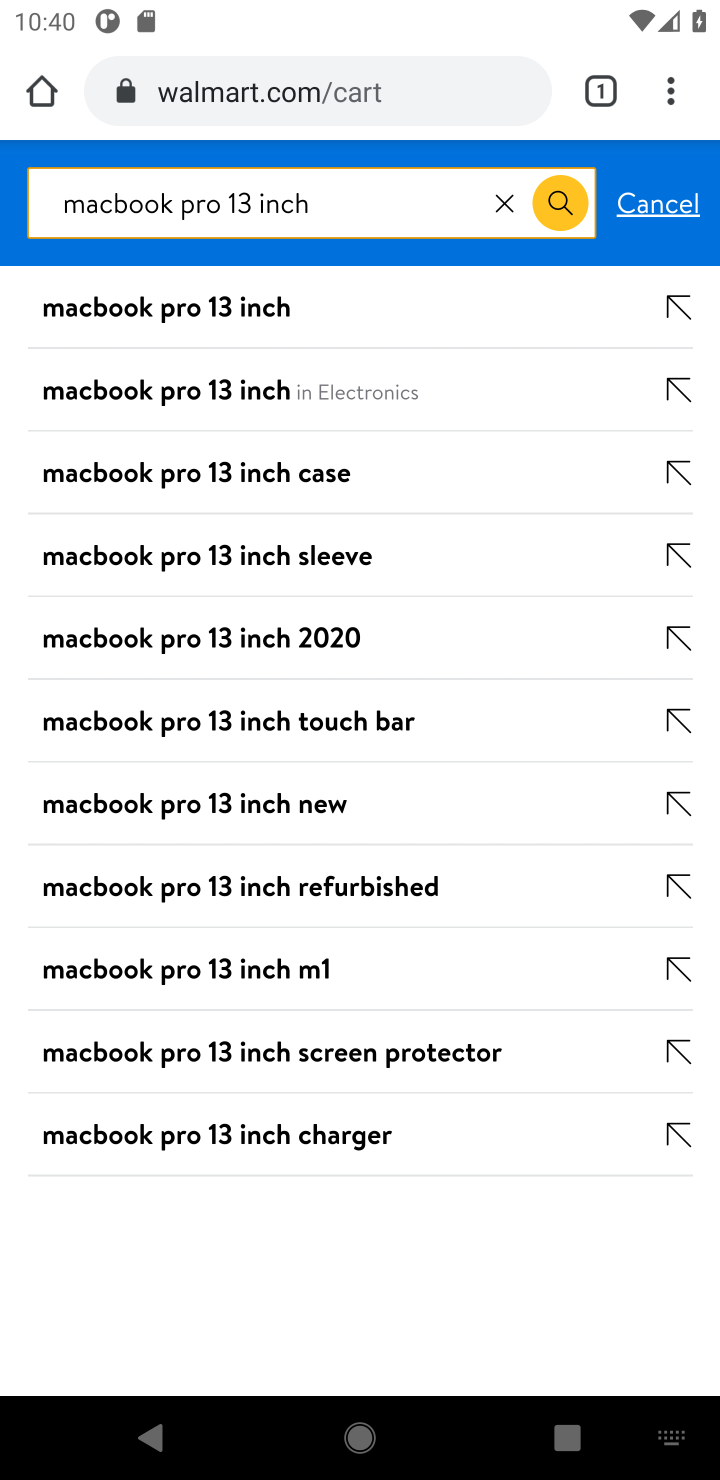
Step 28: click (255, 303)
Your task to perform on an android device: Clear the shopping cart on walmart. Search for macbook pro 13 inch on walmart, select the first entry, and add it to the cart. Image 29: 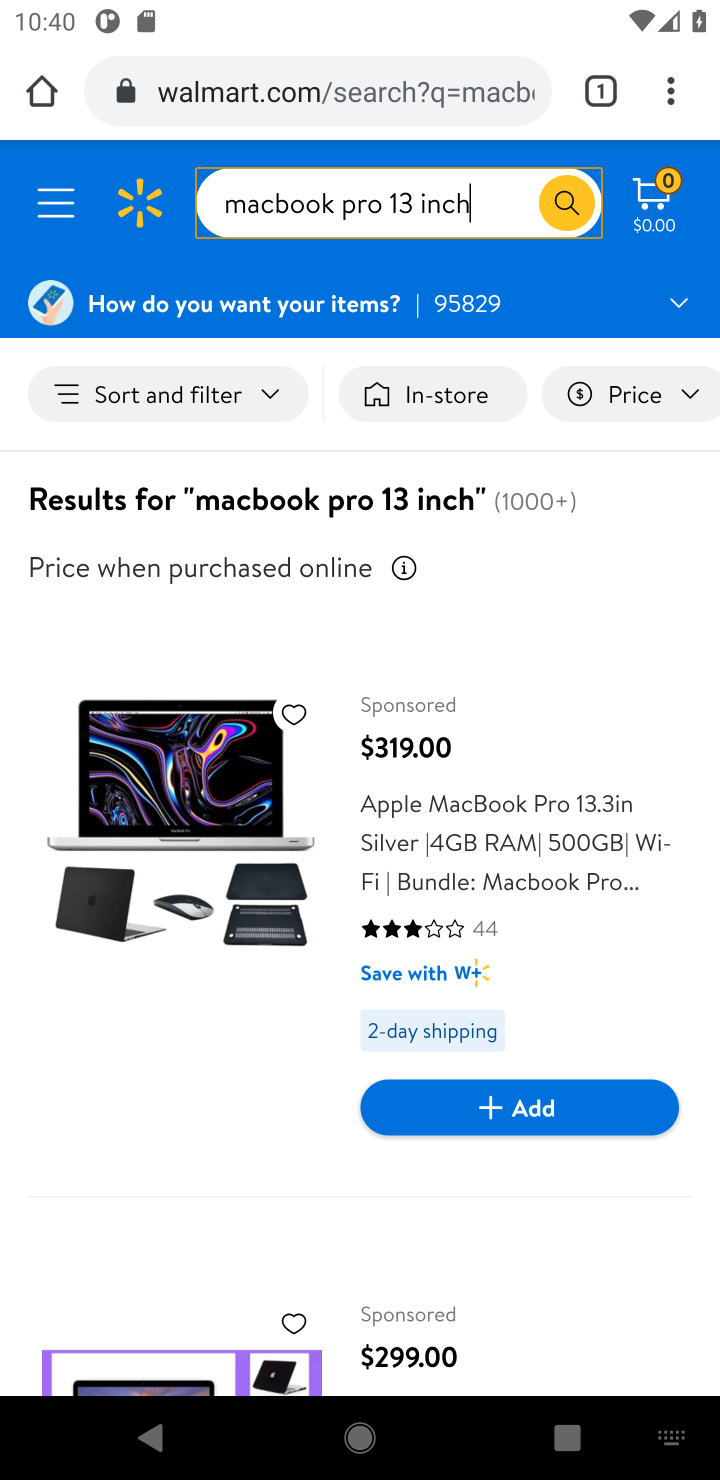
Step 29: click (217, 760)
Your task to perform on an android device: Clear the shopping cart on walmart. Search for macbook pro 13 inch on walmart, select the first entry, and add it to the cart. Image 30: 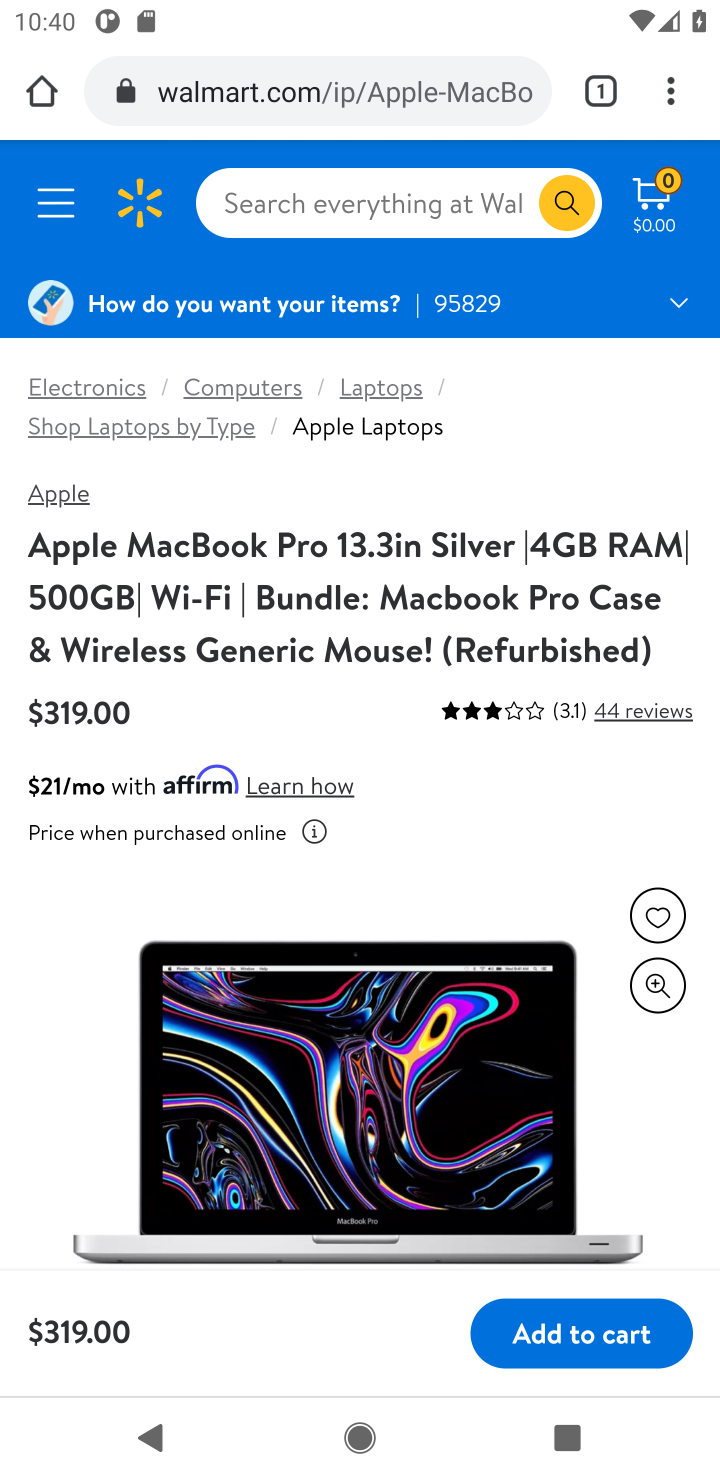
Step 30: click (621, 1333)
Your task to perform on an android device: Clear the shopping cart on walmart. Search for macbook pro 13 inch on walmart, select the first entry, and add it to the cart. Image 31: 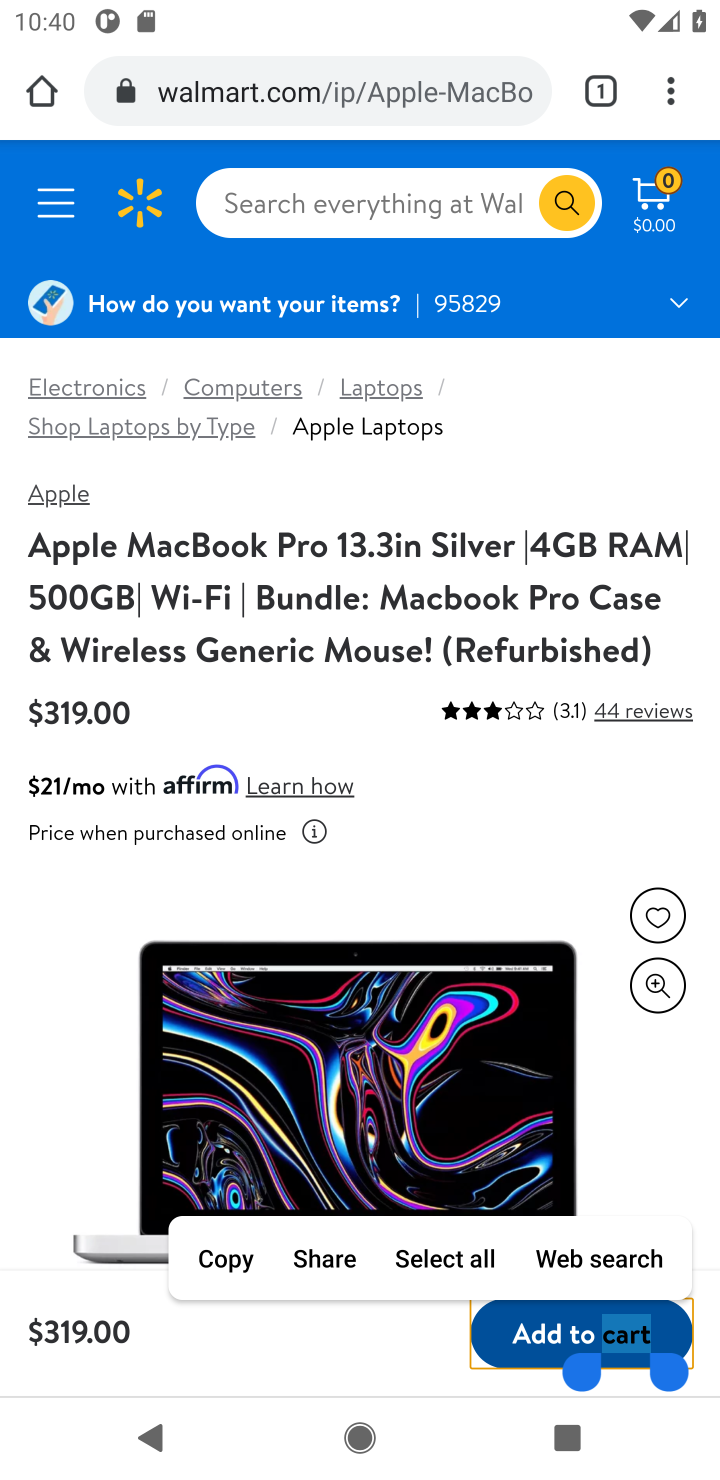
Step 31: drag from (582, 733) to (605, 327)
Your task to perform on an android device: Clear the shopping cart on walmart. Search for macbook pro 13 inch on walmart, select the first entry, and add it to the cart. Image 32: 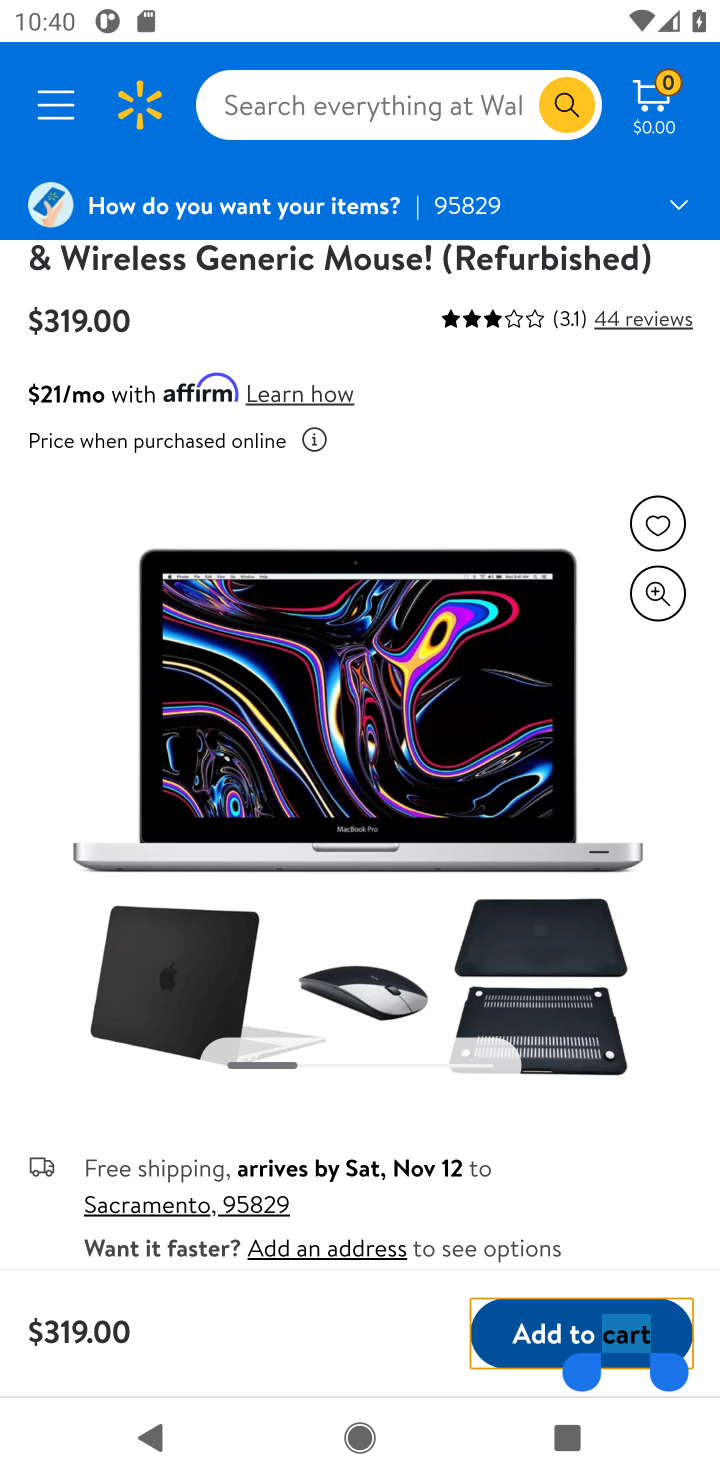
Step 32: click (665, 881)
Your task to perform on an android device: Clear the shopping cart on walmart. Search for macbook pro 13 inch on walmart, select the first entry, and add it to the cart. Image 33: 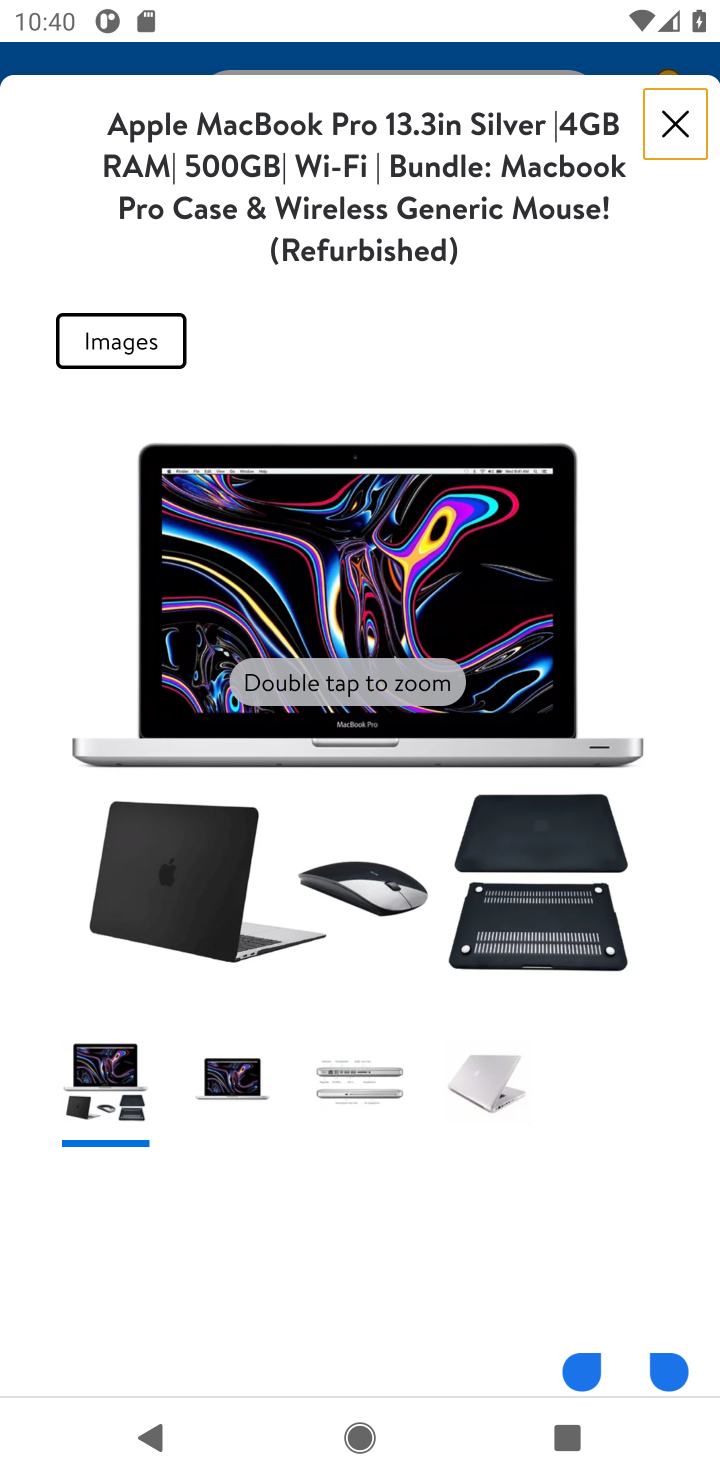
Step 33: click (610, 824)
Your task to perform on an android device: Clear the shopping cart on walmart. Search for macbook pro 13 inch on walmart, select the first entry, and add it to the cart. Image 34: 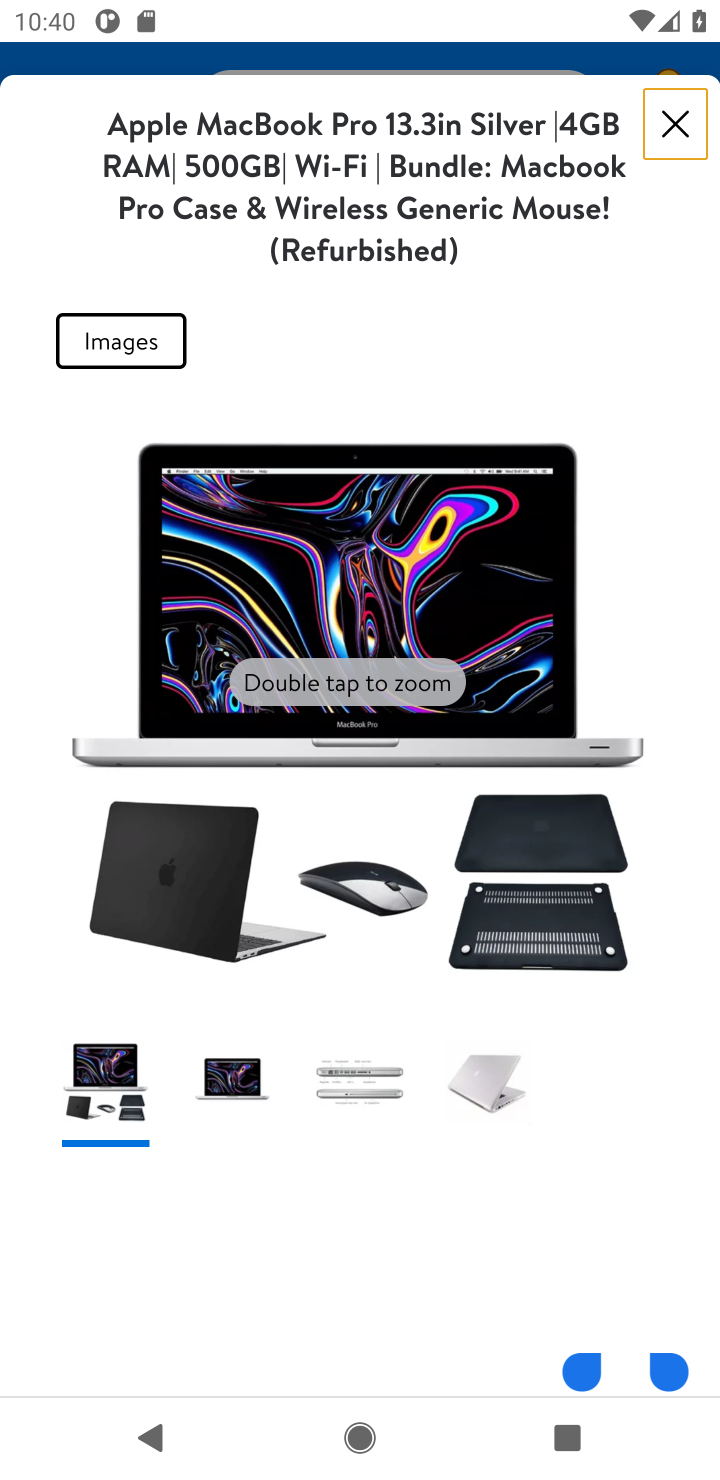
Step 34: click (610, 810)
Your task to perform on an android device: Clear the shopping cart on walmart. Search for macbook pro 13 inch on walmart, select the first entry, and add it to the cart. Image 35: 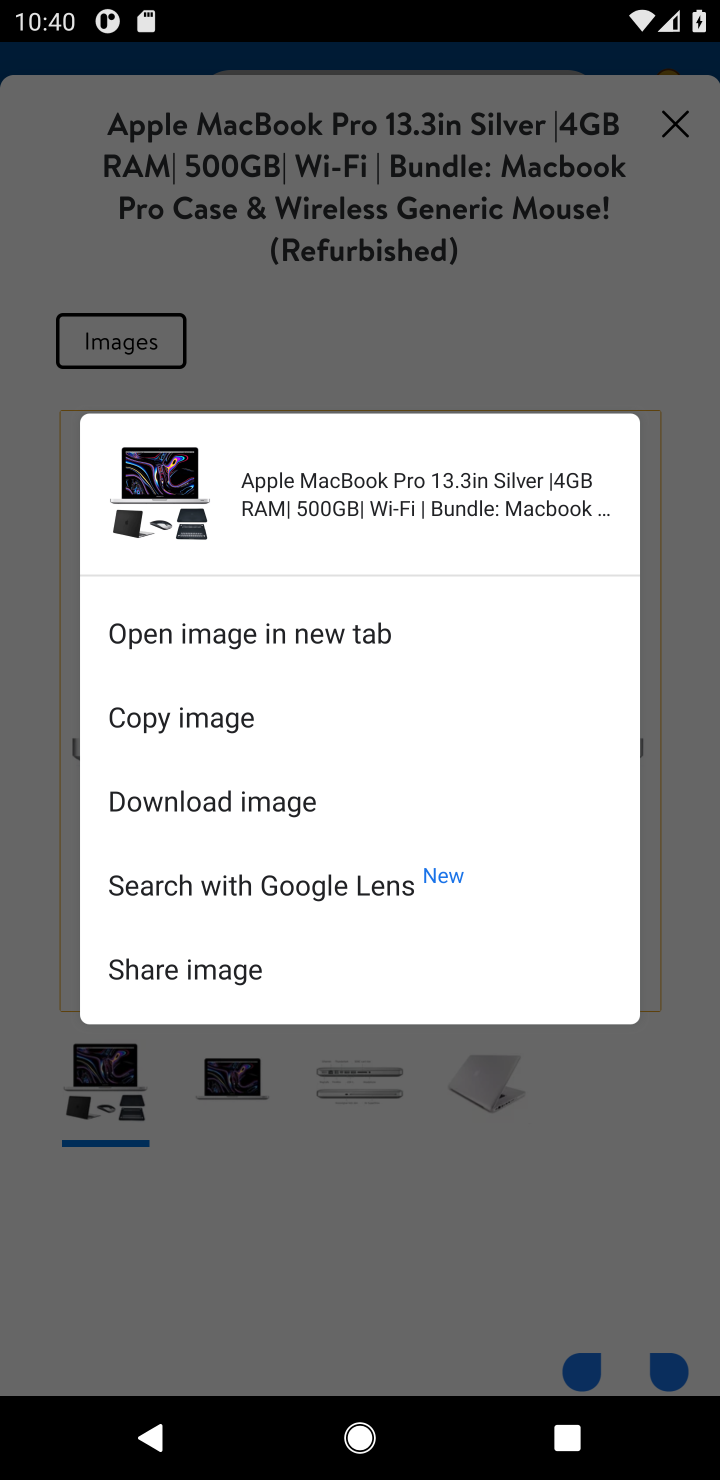
Step 35: click (689, 279)
Your task to perform on an android device: Clear the shopping cart on walmart. Search for macbook pro 13 inch on walmart, select the first entry, and add it to the cart. Image 36: 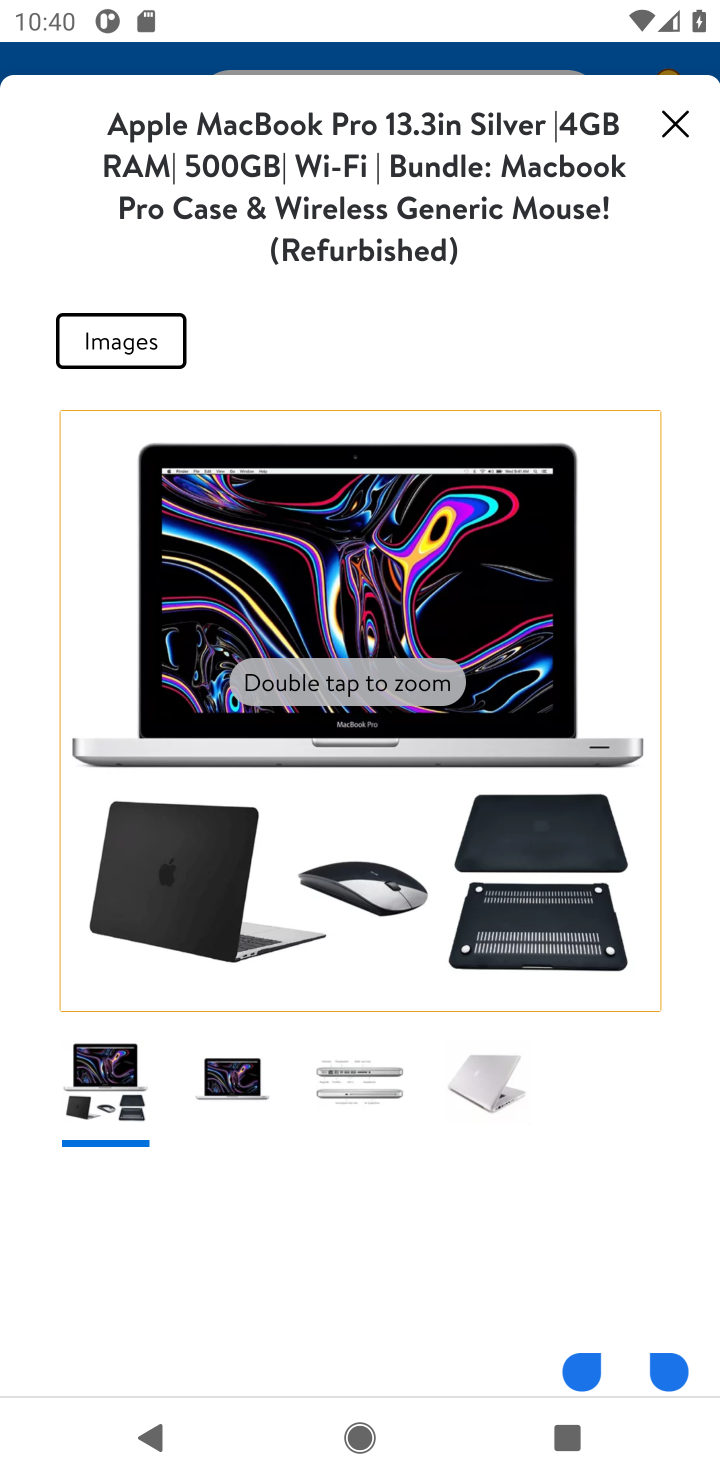
Step 36: click (683, 128)
Your task to perform on an android device: Clear the shopping cart on walmart. Search for macbook pro 13 inch on walmart, select the first entry, and add it to the cart. Image 37: 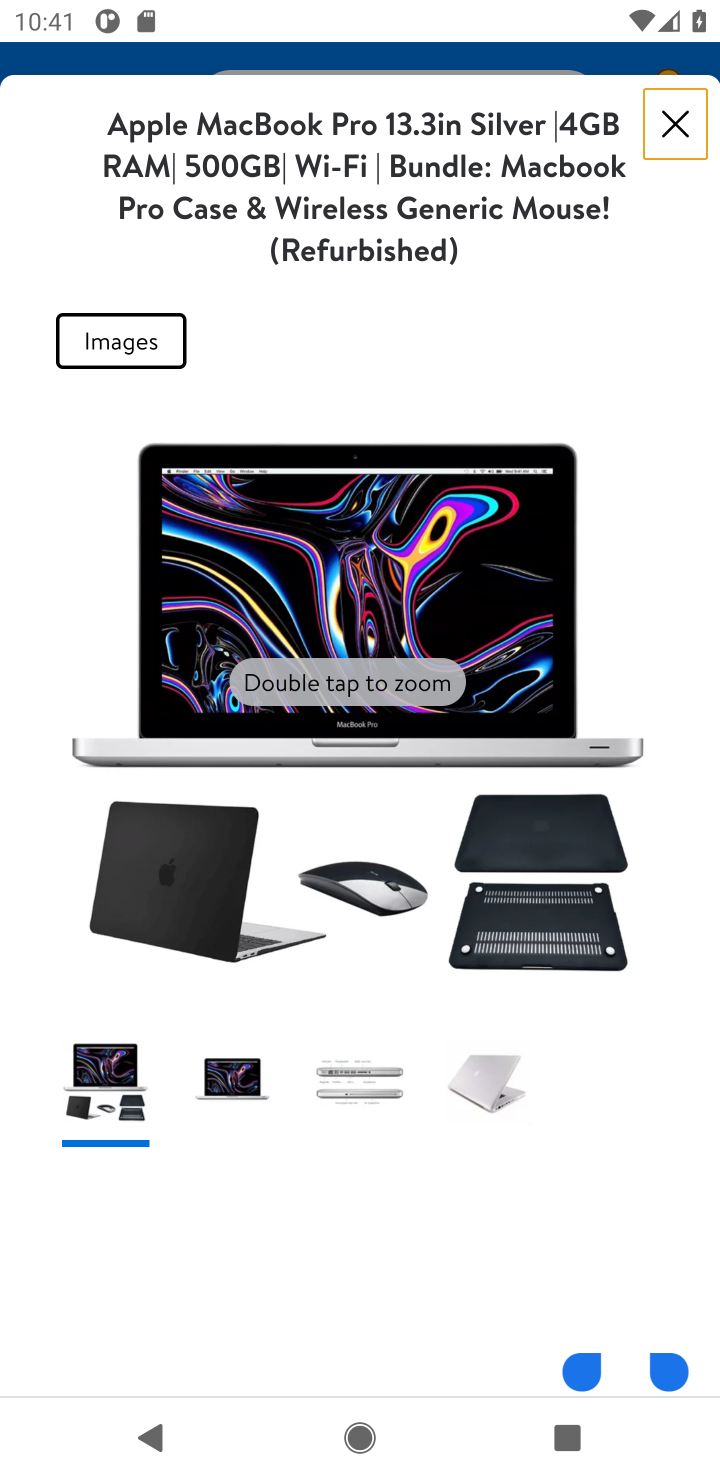
Step 37: click (680, 121)
Your task to perform on an android device: Clear the shopping cart on walmart. Search for macbook pro 13 inch on walmart, select the first entry, and add it to the cart. Image 38: 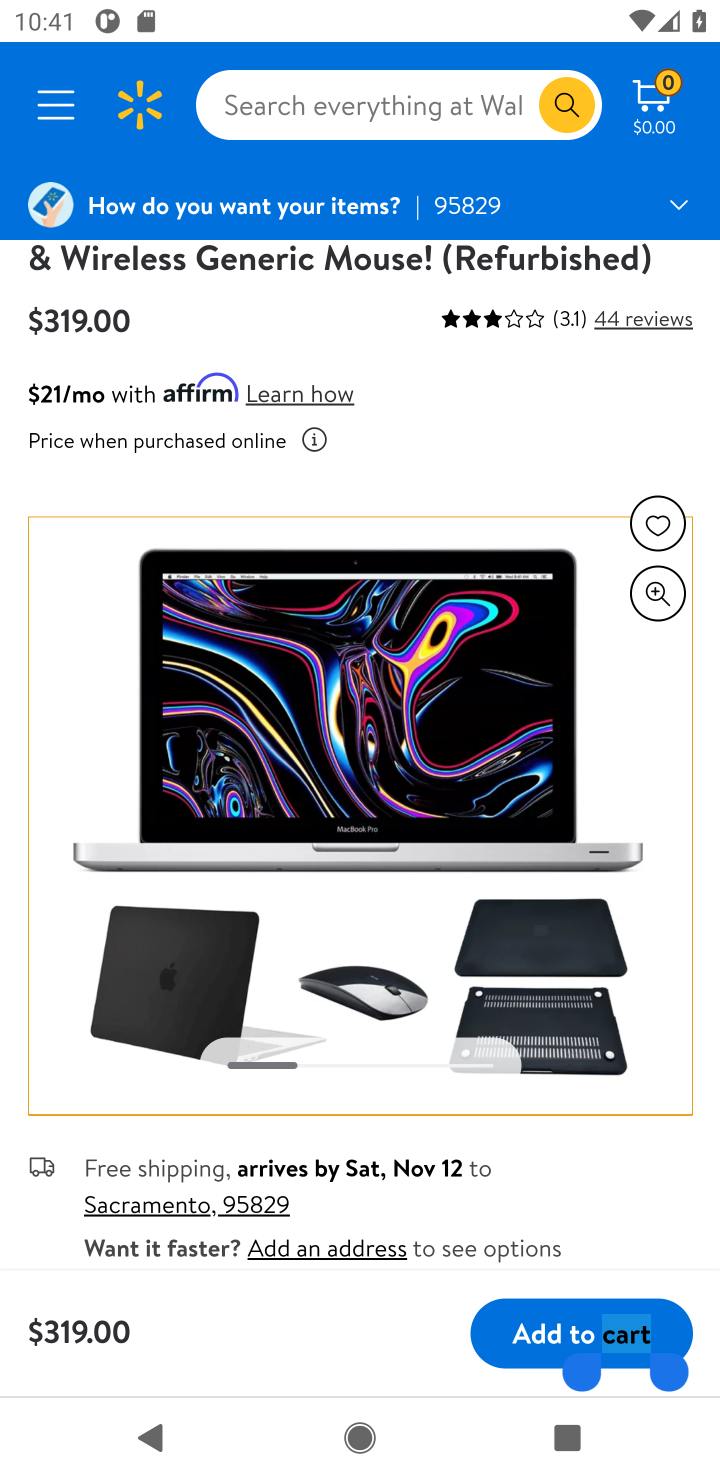
Step 38: click (532, 1331)
Your task to perform on an android device: Clear the shopping cart on walmart. Search for macbook pro 13 inch on walmart, select the first entry, and add it to the cart. Image 39: 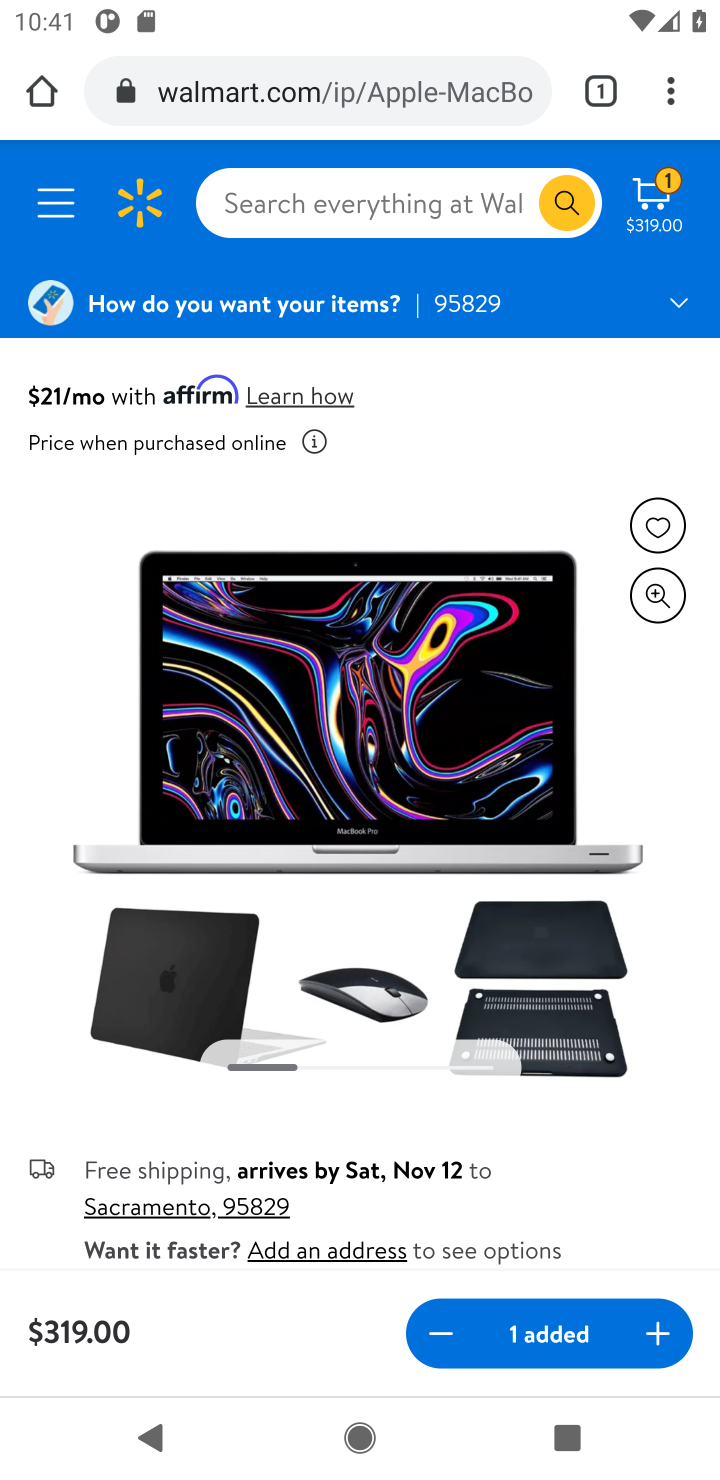
Step 39: task complete